Your task to perform on an android device: Clear the shopping cart on costco. Image 0: 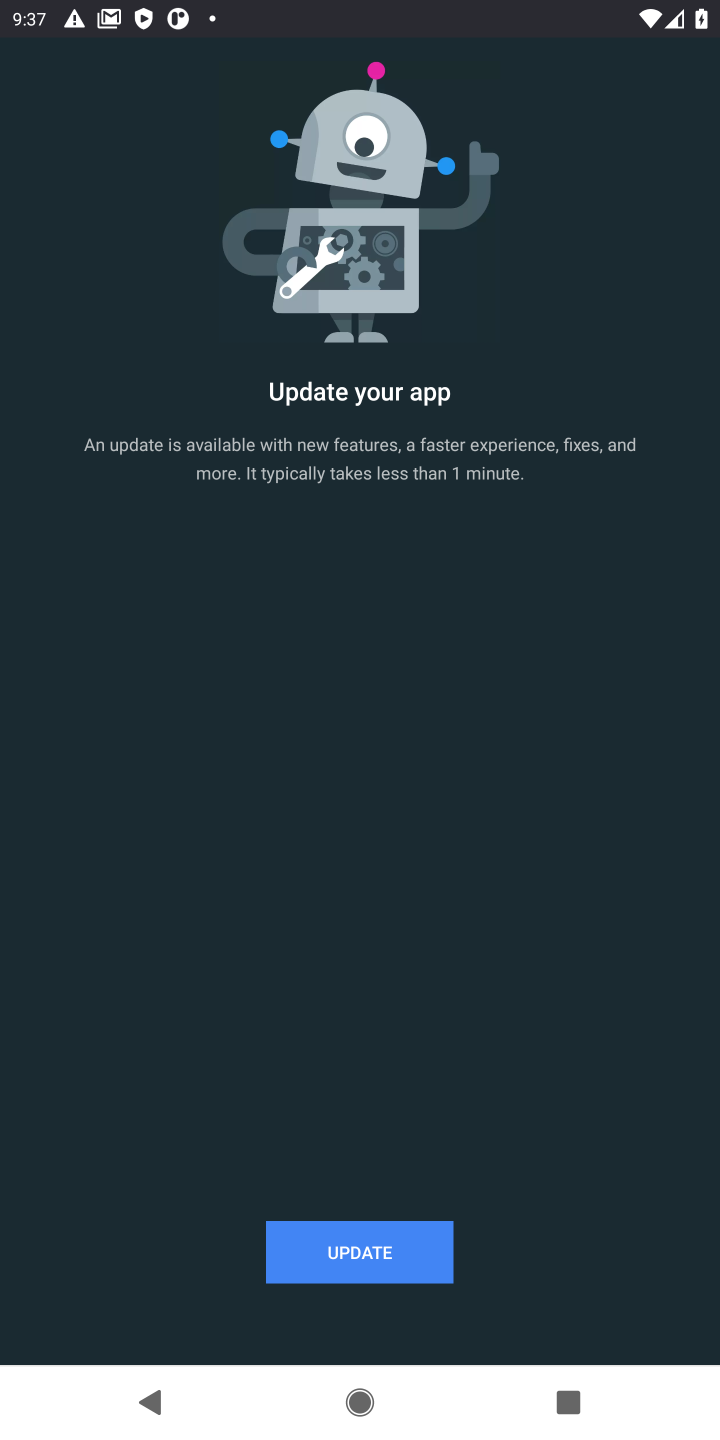
Step 0: press home button
Your task to perform on an android device: Clear the shopping cart on costco. Image 1: 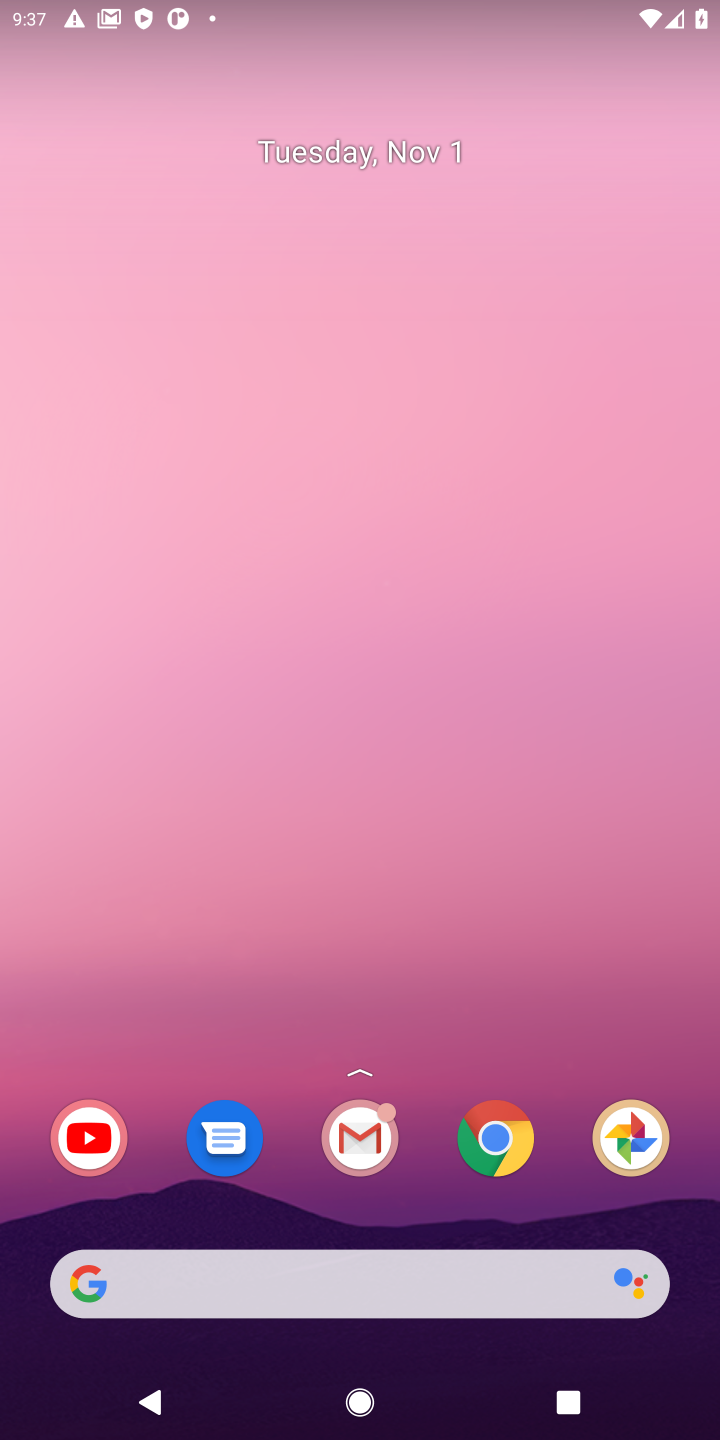
Step 1: click (490, 1156)
Your task to perform on an android device: Clear the shopping cart on costco. Image 2: 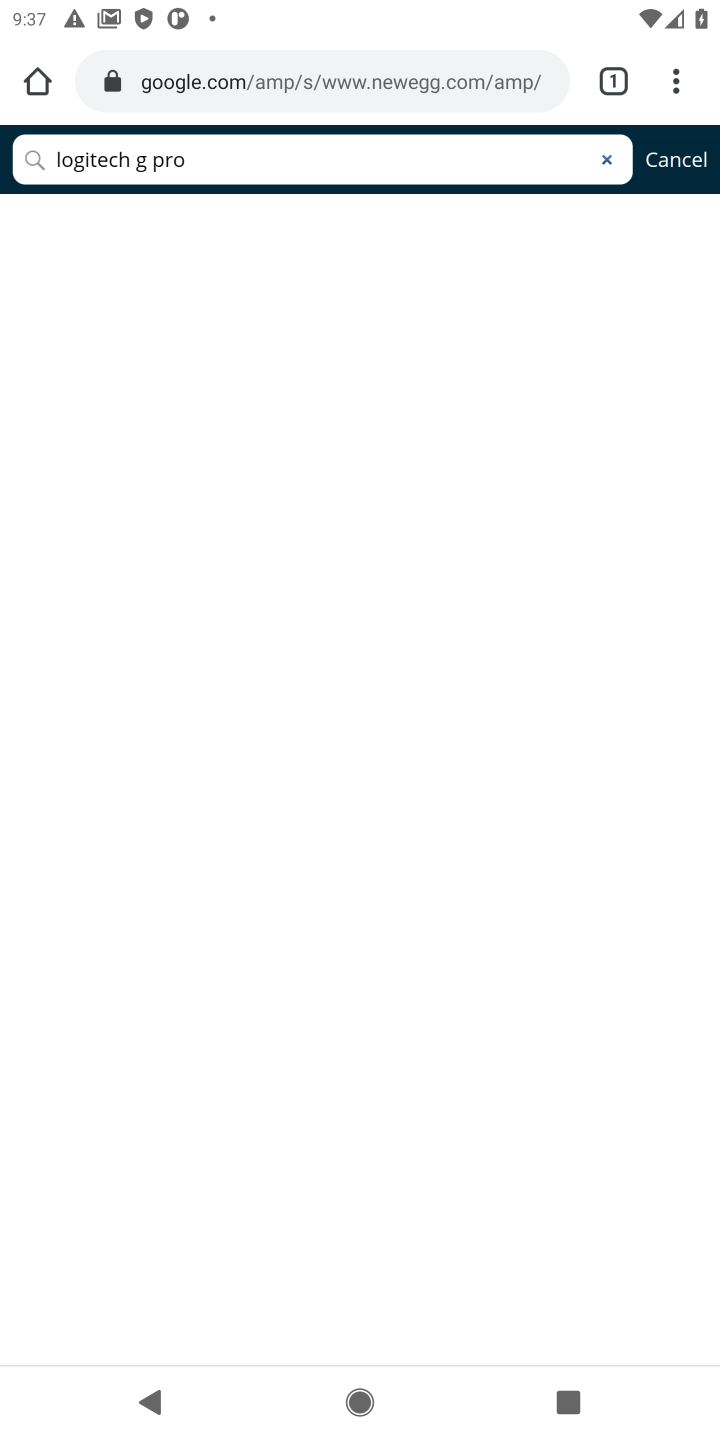
Step 2: click (272, 87)
Your task to perform on an android device: Clear the shopping cart on costco. Image 3: 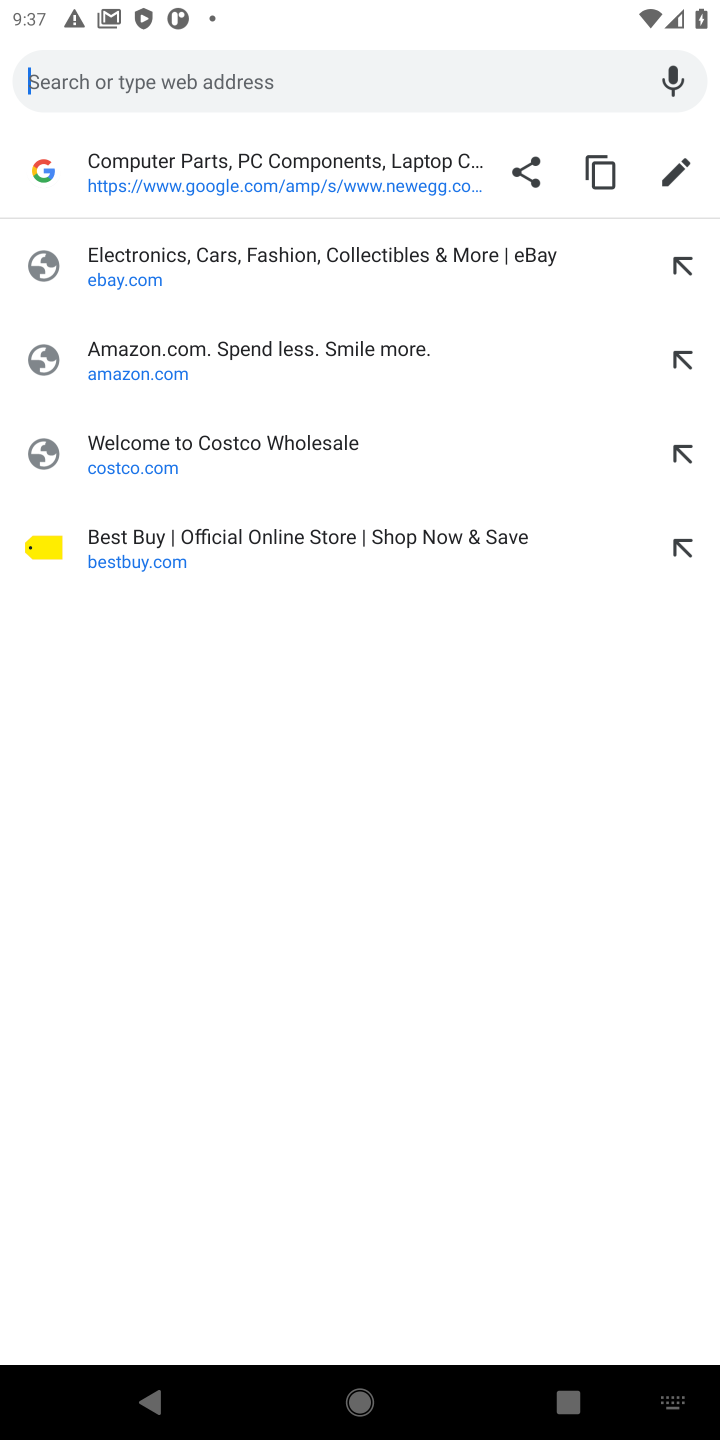
Step 3: type "costco.com"
Your task to perform on an android device: Clear the shopping cart on costco. Image 4: 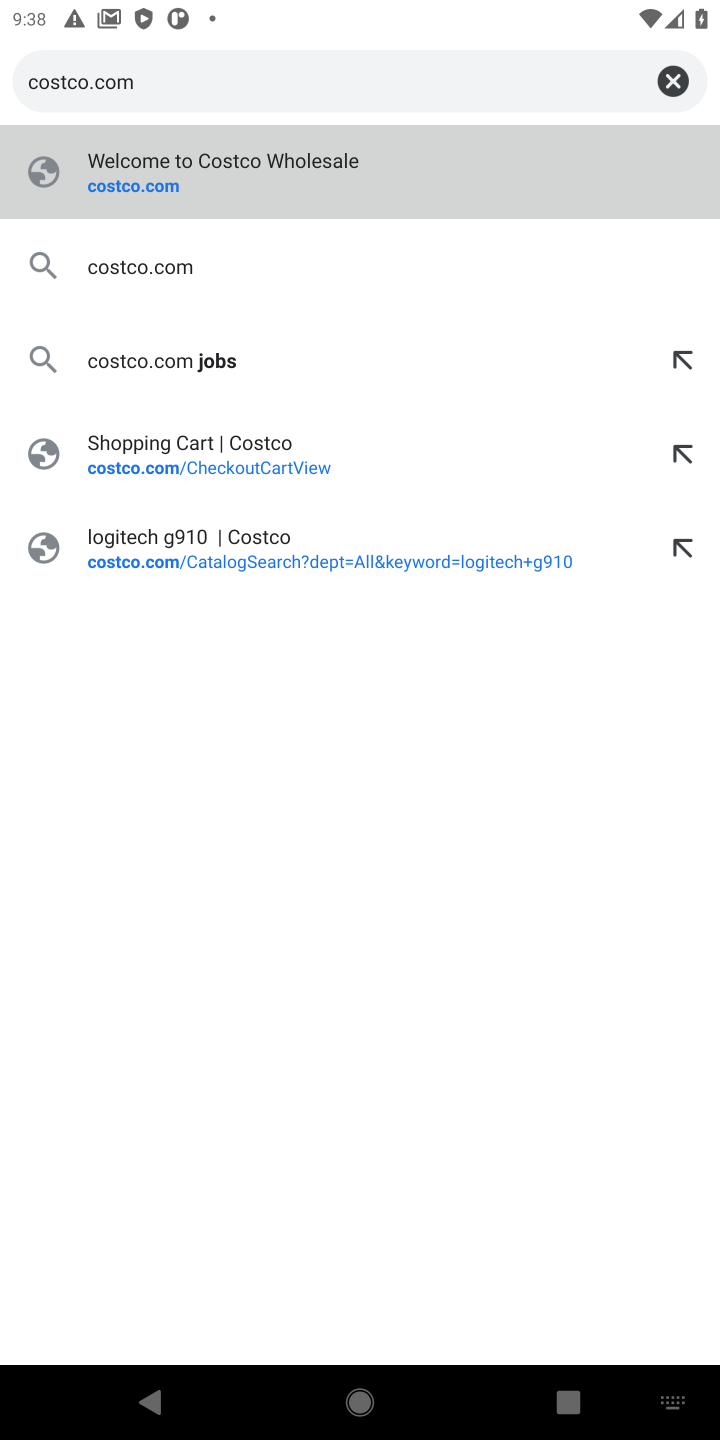
Step 4: click (145, 189)
Your task to perform on an android device: Clear the shopping cart on costco. Image 5: 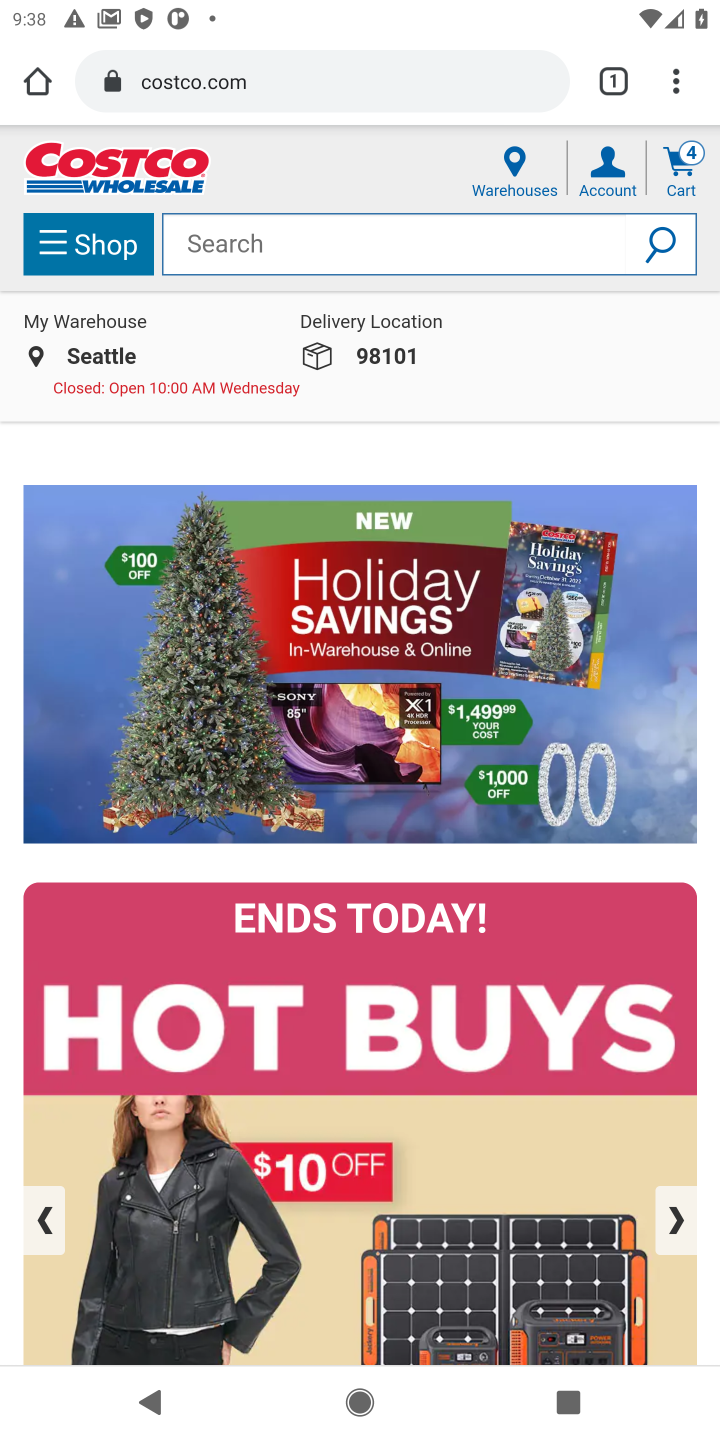
Step 5: click (686, 166)
Your task to perform on an android device: Clear the shopping cart on costco. Image 6: 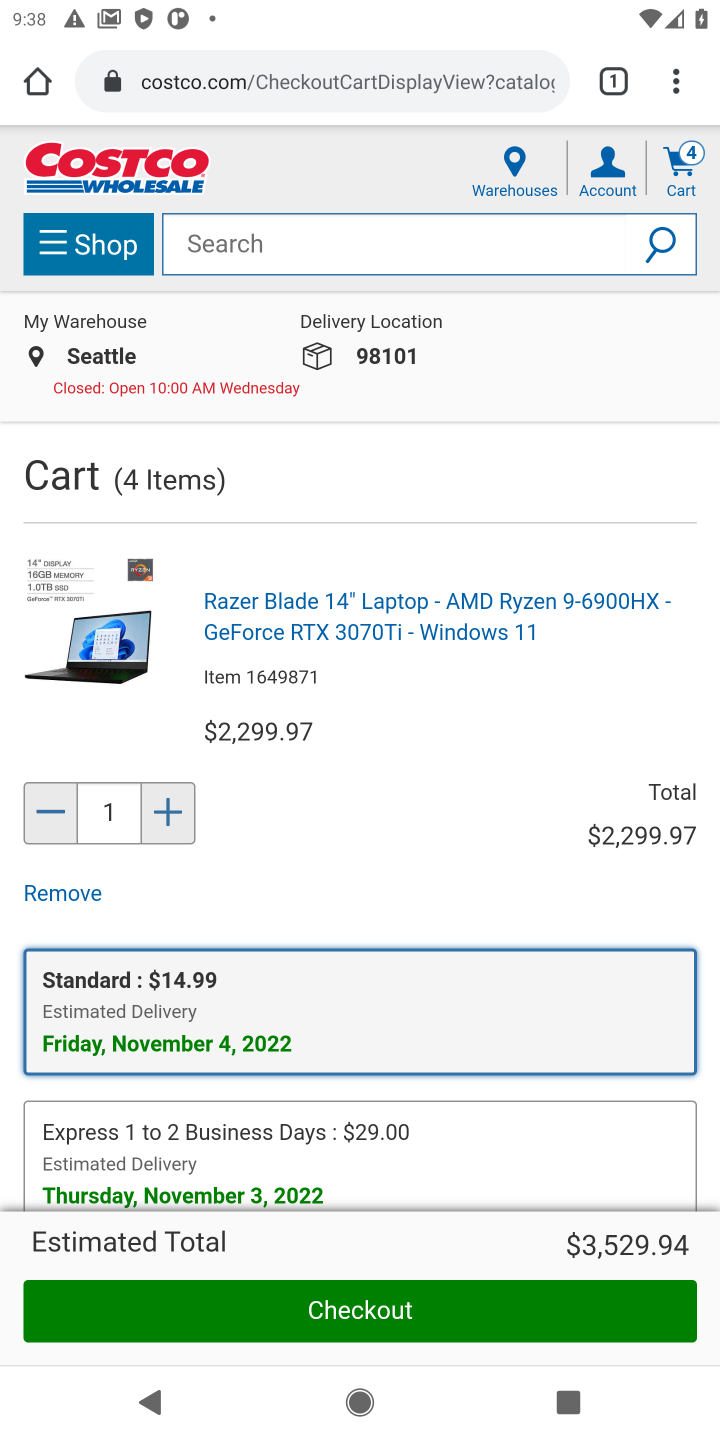
Step 6: click (58, 899)
Your task to perform on an android device: Clear the shopping cart on costco. Image 7: 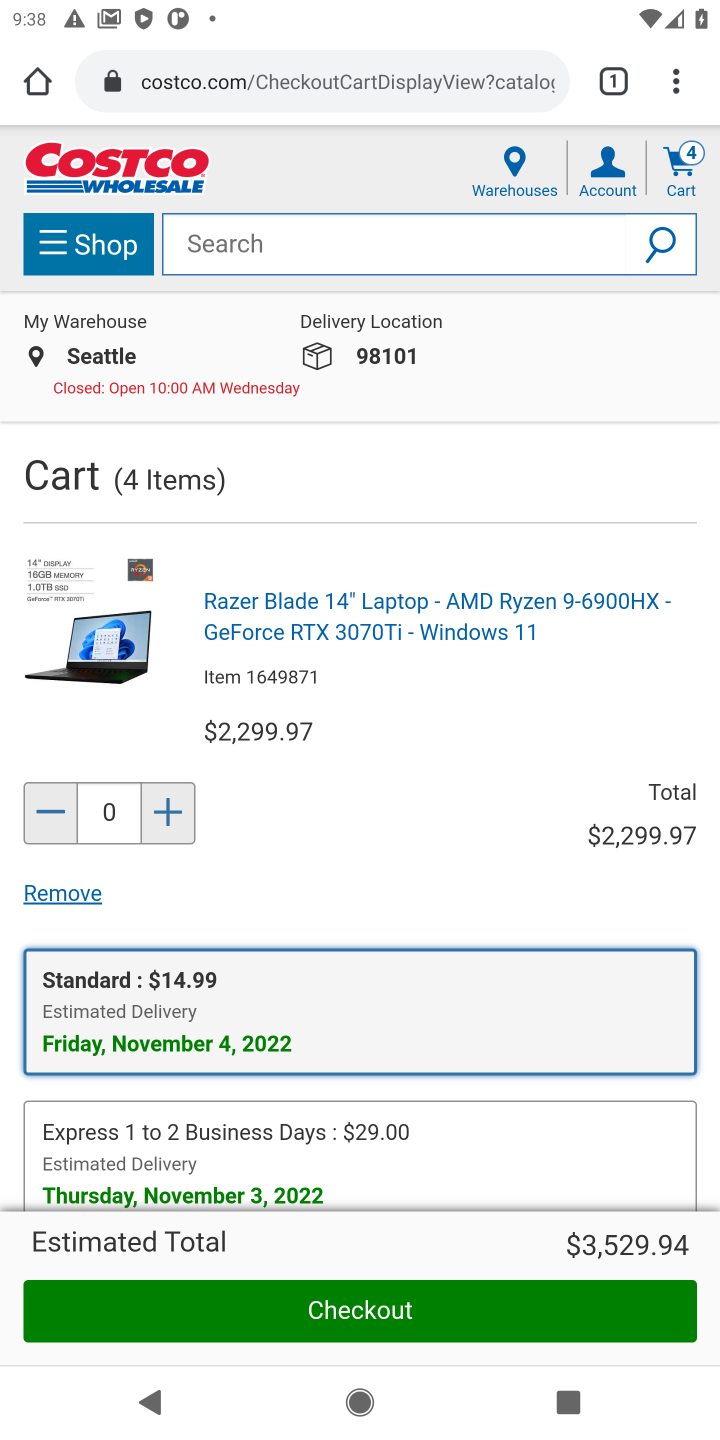
Step 7: click (51, 812)
Your task to perform on an android device: Clear the shopping cart on costco. Image 8: 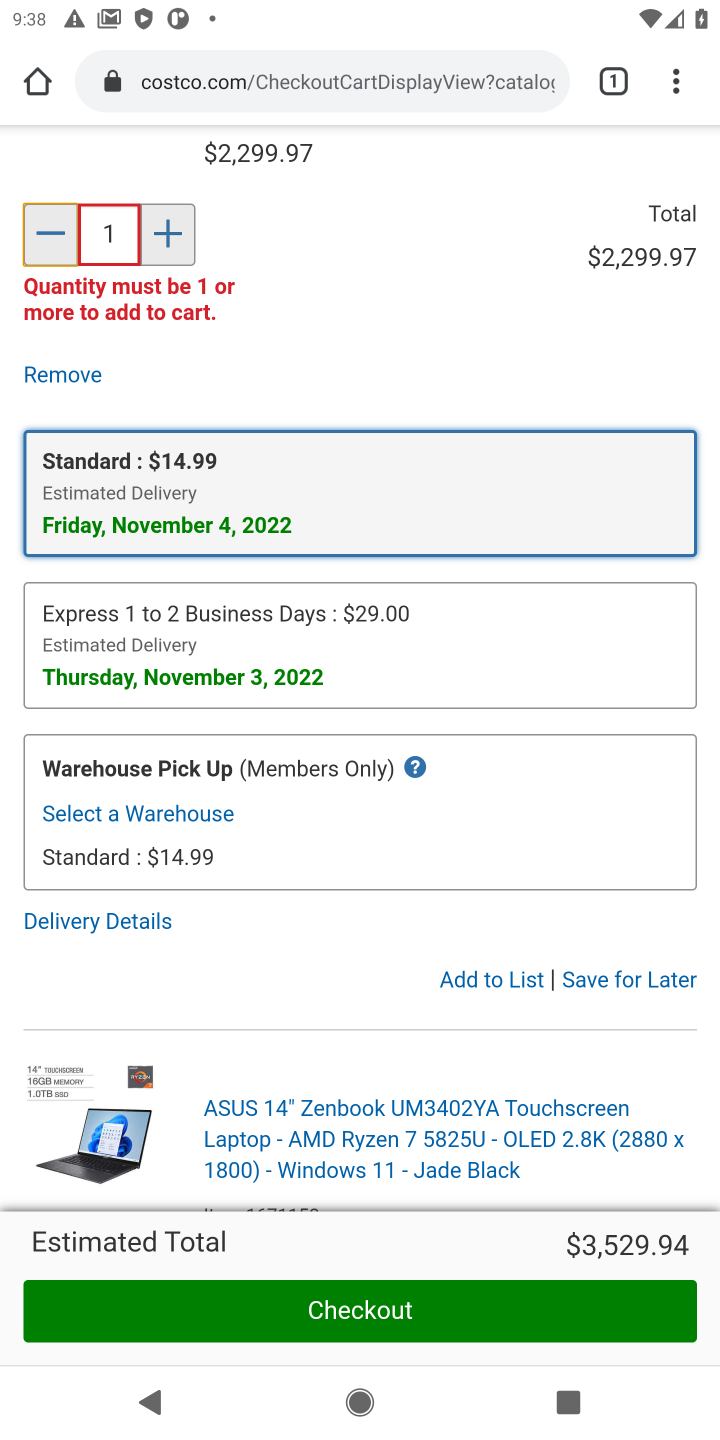
Step 8: click (64, 376)
Your task to perform on an android device: Clear the shopping cart on costco. Image 9: 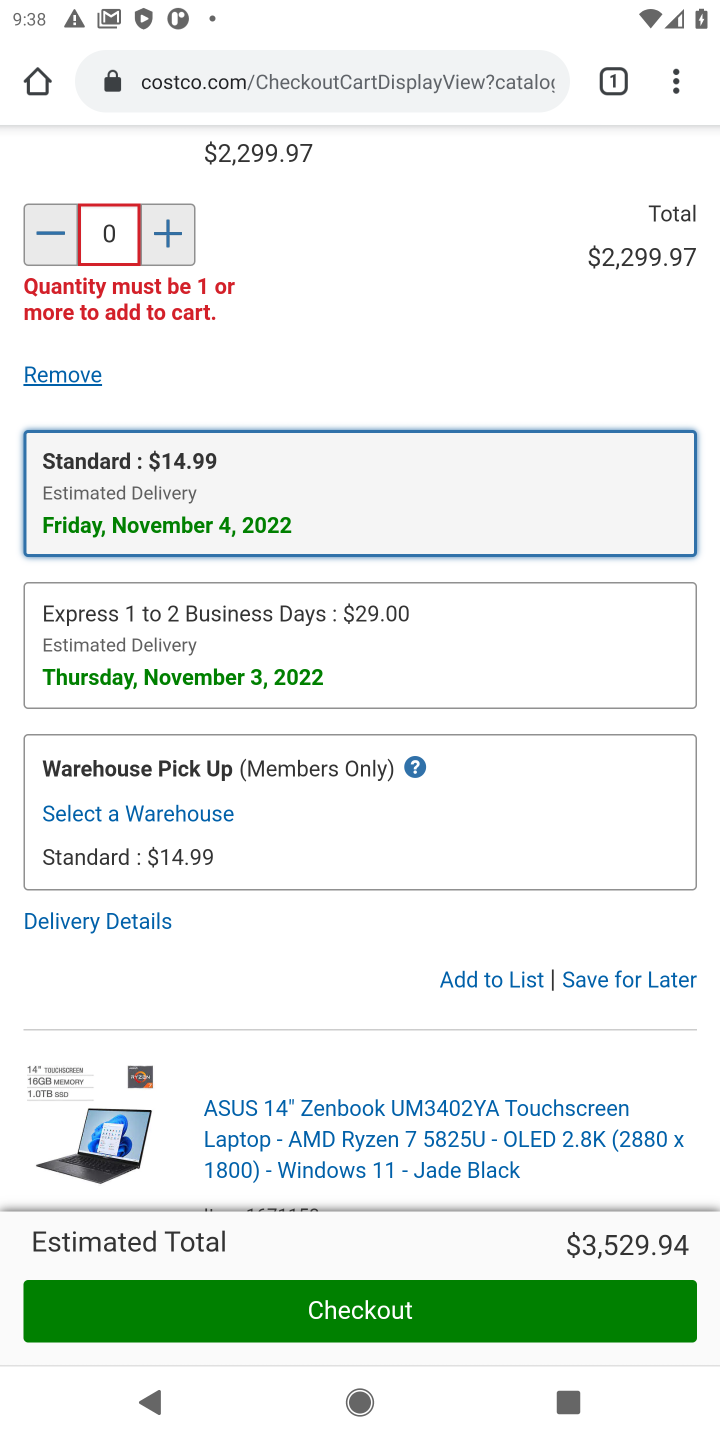
Step 9: click (64, 376)
Your task to perform on an android device: Clear the shopping cart on costco. Image 10: 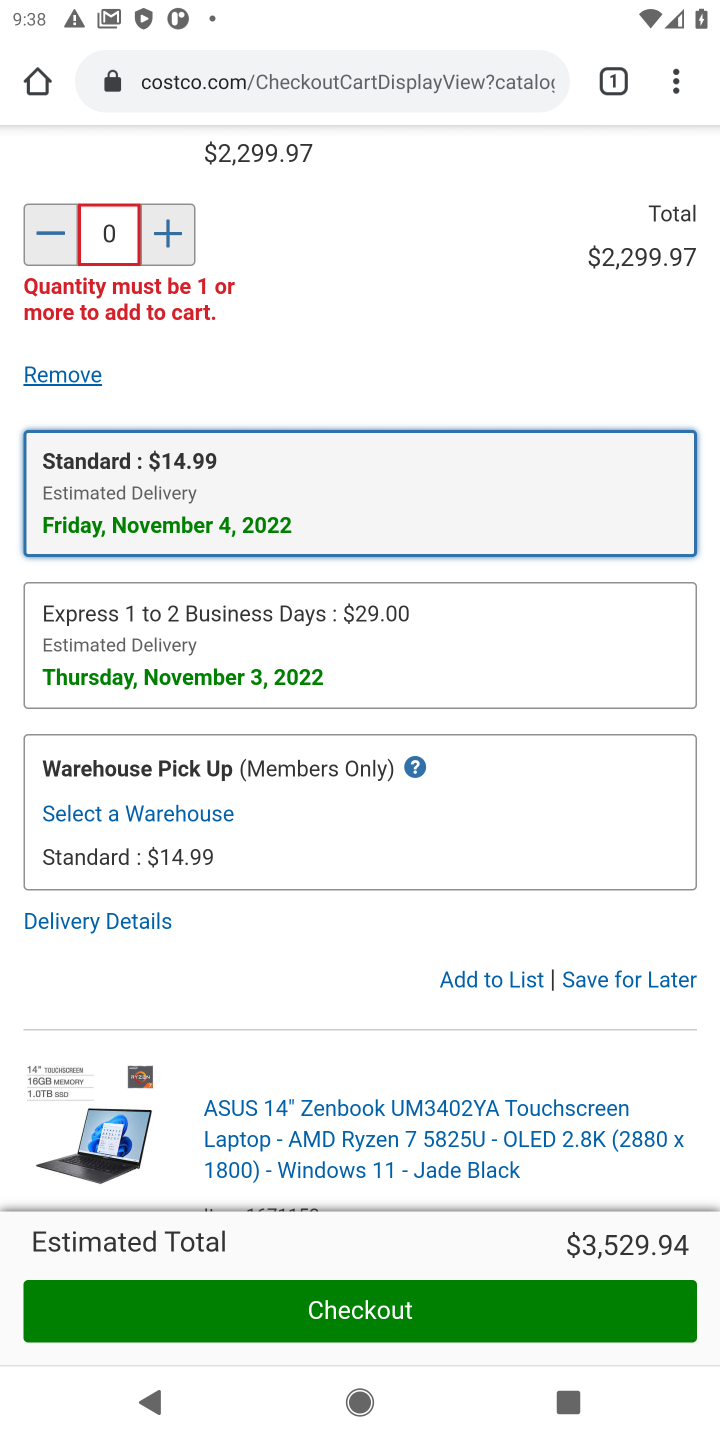
Step 10: drag from (176, 893) to (170, 402)
Your task to perform on an android device: Clear the shopping cart on costco. Image 11: 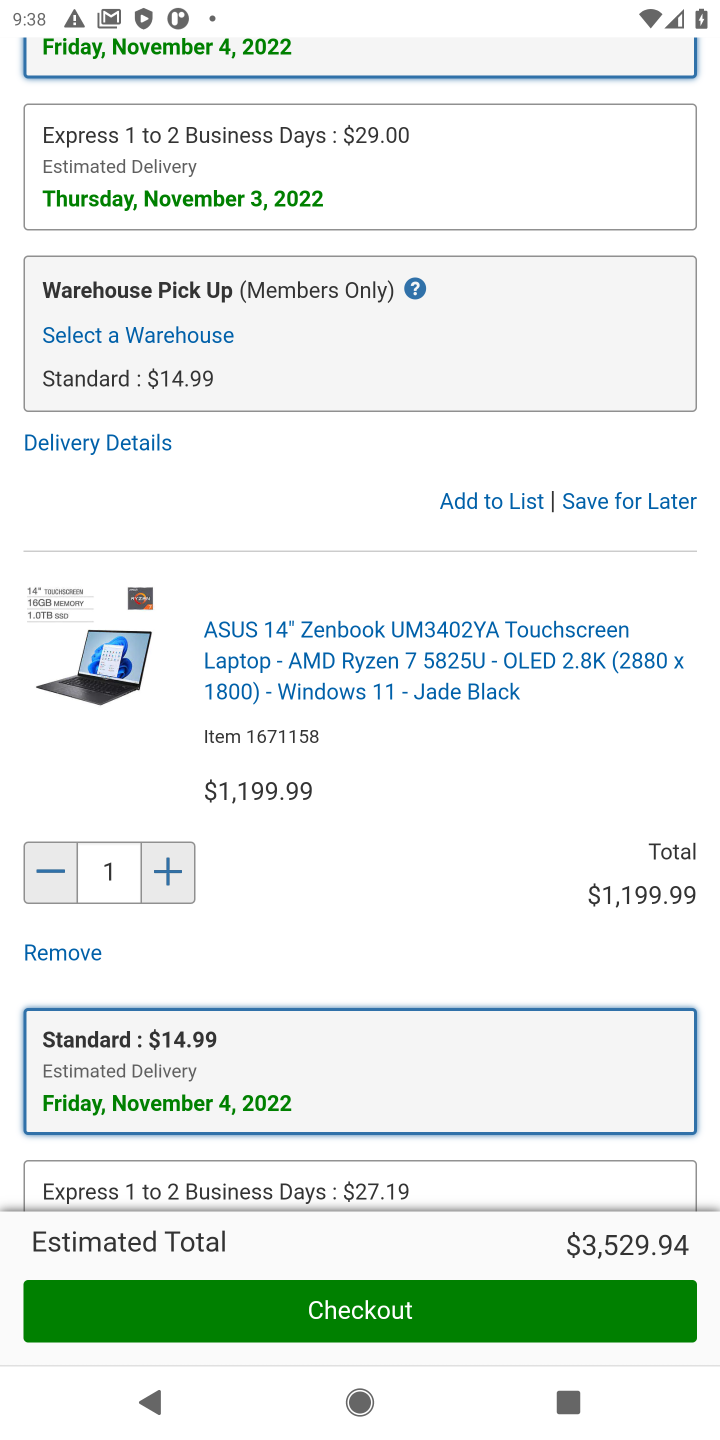
Step 11: click (77, 952)
Your task to perform on an android device: Clear the shopping cart on costco. Image 12: 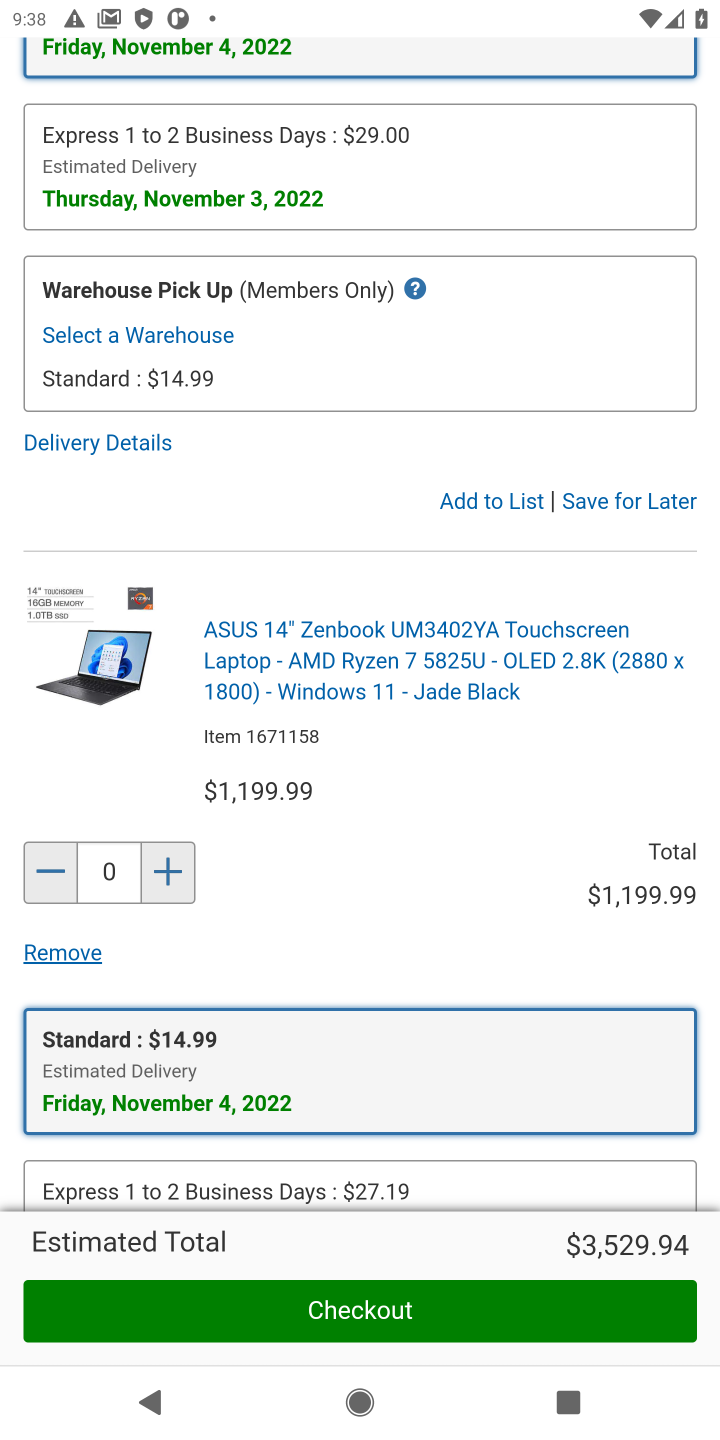
Step 12: drag from (173, 941) to (201, 437)
Your task to perform on an android device: Clear the shopping cart on costco. Image 13: 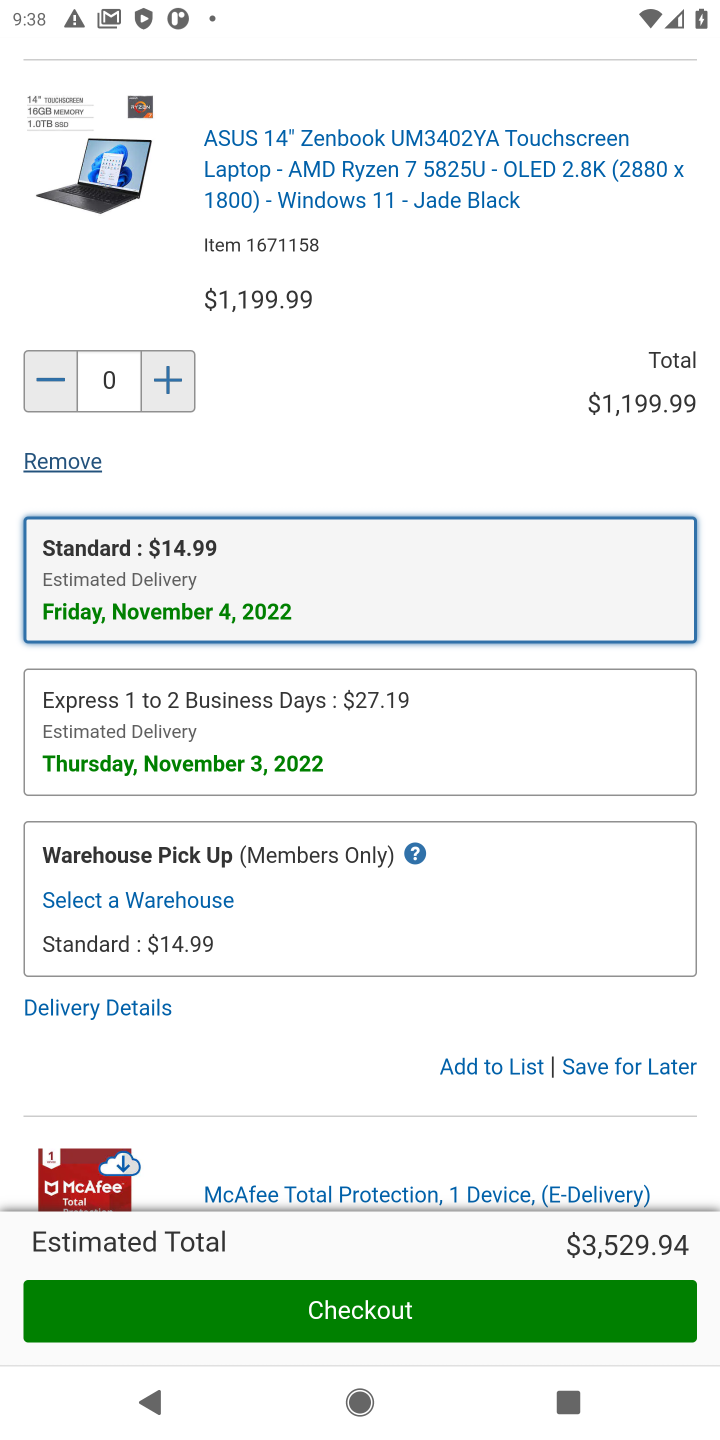
Step 13: drag from (224, 1027) to (185, 517)
Your task to perform on an android device: Clear the shopping cart on costco. Image 14: 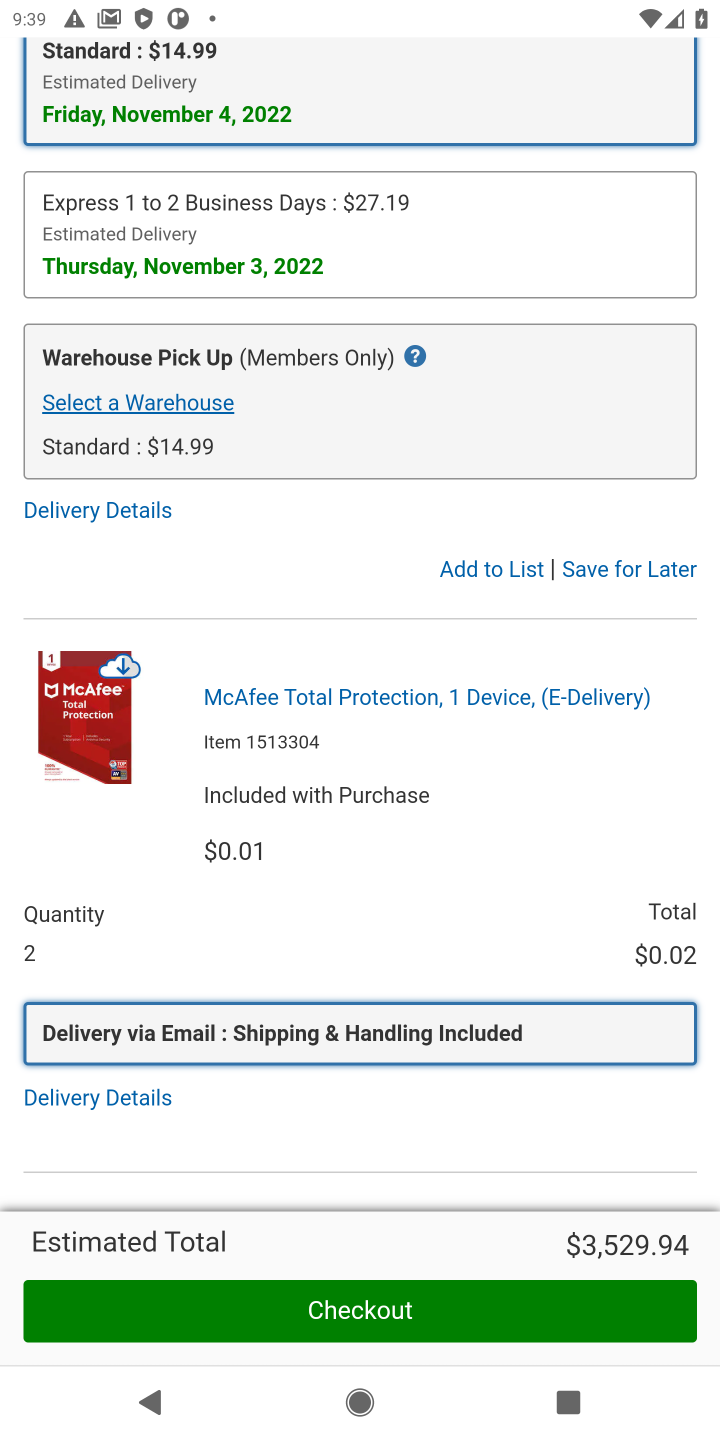
Step 14: drag from (432, 883) to (400, 499)
Your task to perform on an android device: Clear the shopping cart on costco. Image 15: 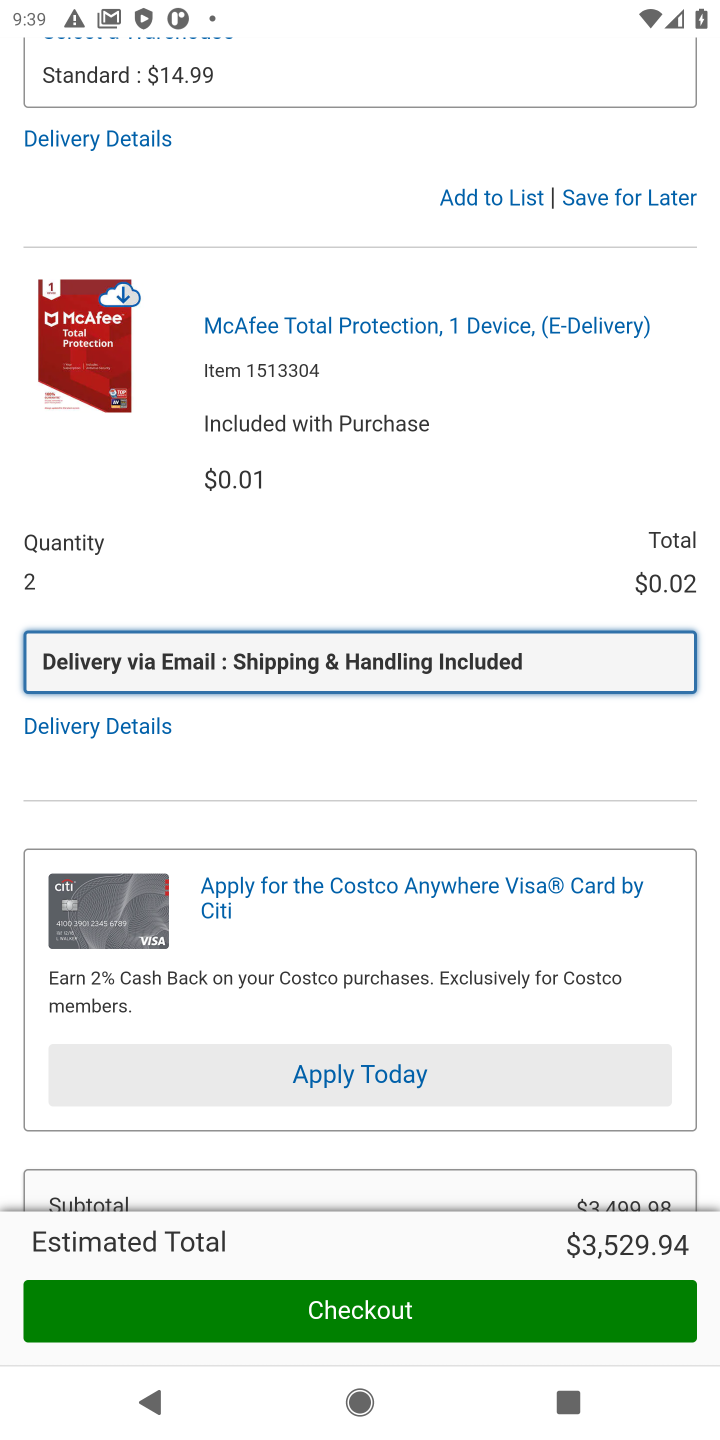
Step 15: drag from (308, 862) to (285, 527)
Your task to perform on an android device: Clear the shopping cart on costco. Image 16: 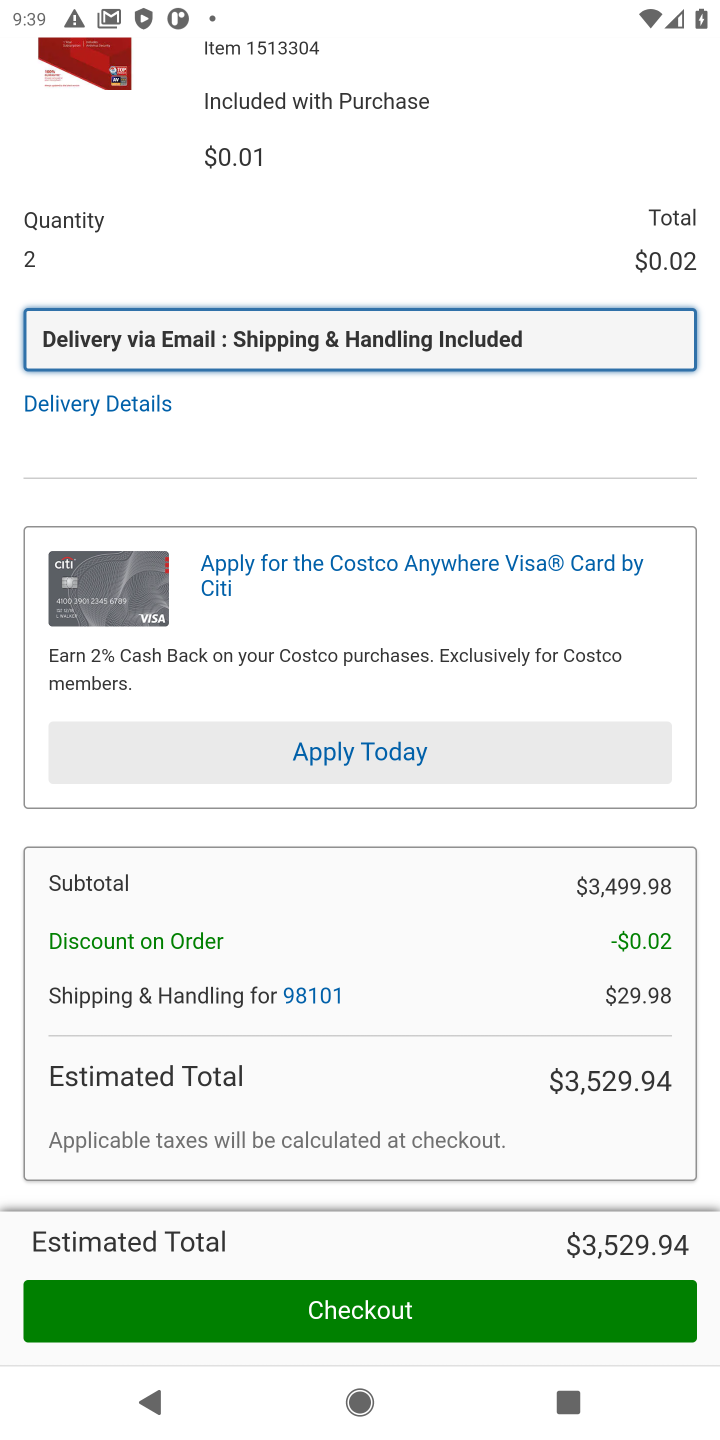
Step 16: drag from (275, 959) to (273, 578)
Your task to perform on an android device: Clear the shopping cart on costco. Image 17: 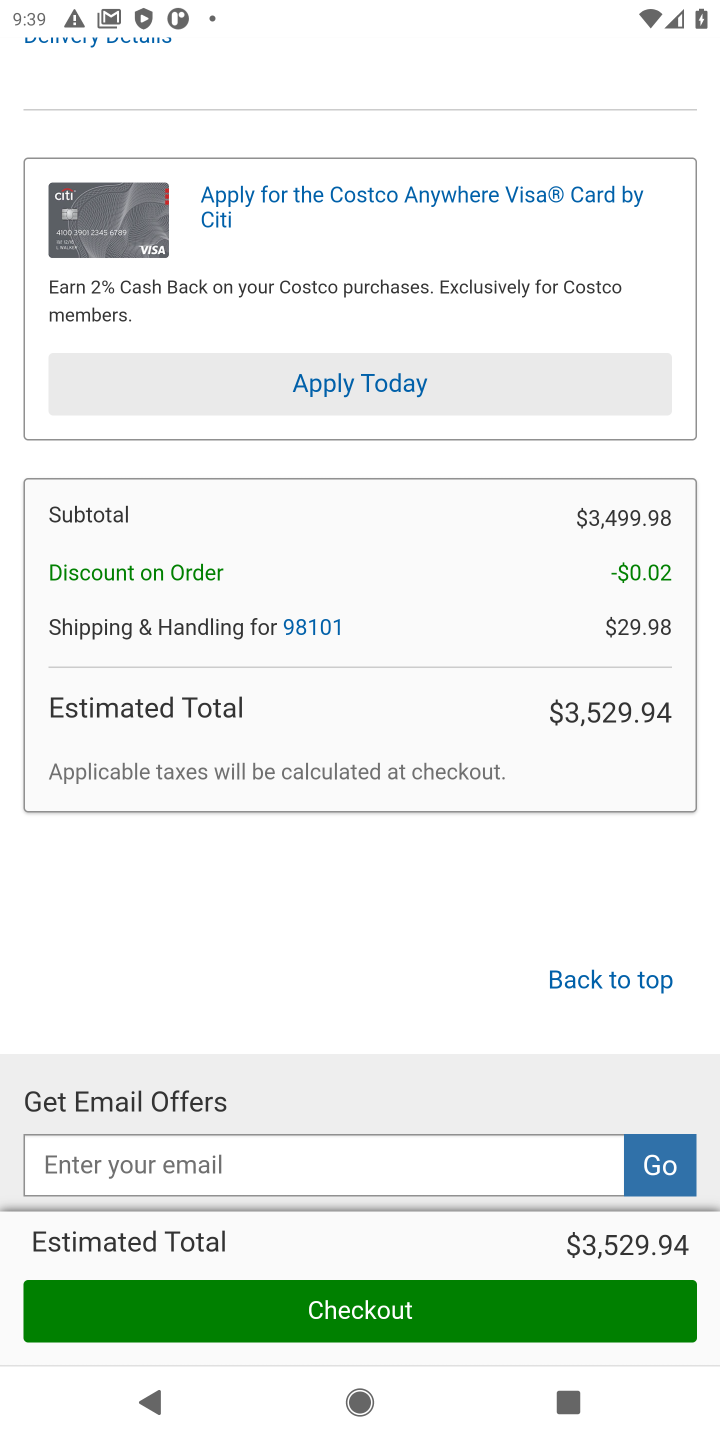
Step 17: drag from (259, 873) to (276, 520)
Your task to perform on an android device: Clear the shopping cart on costco. Image 18: 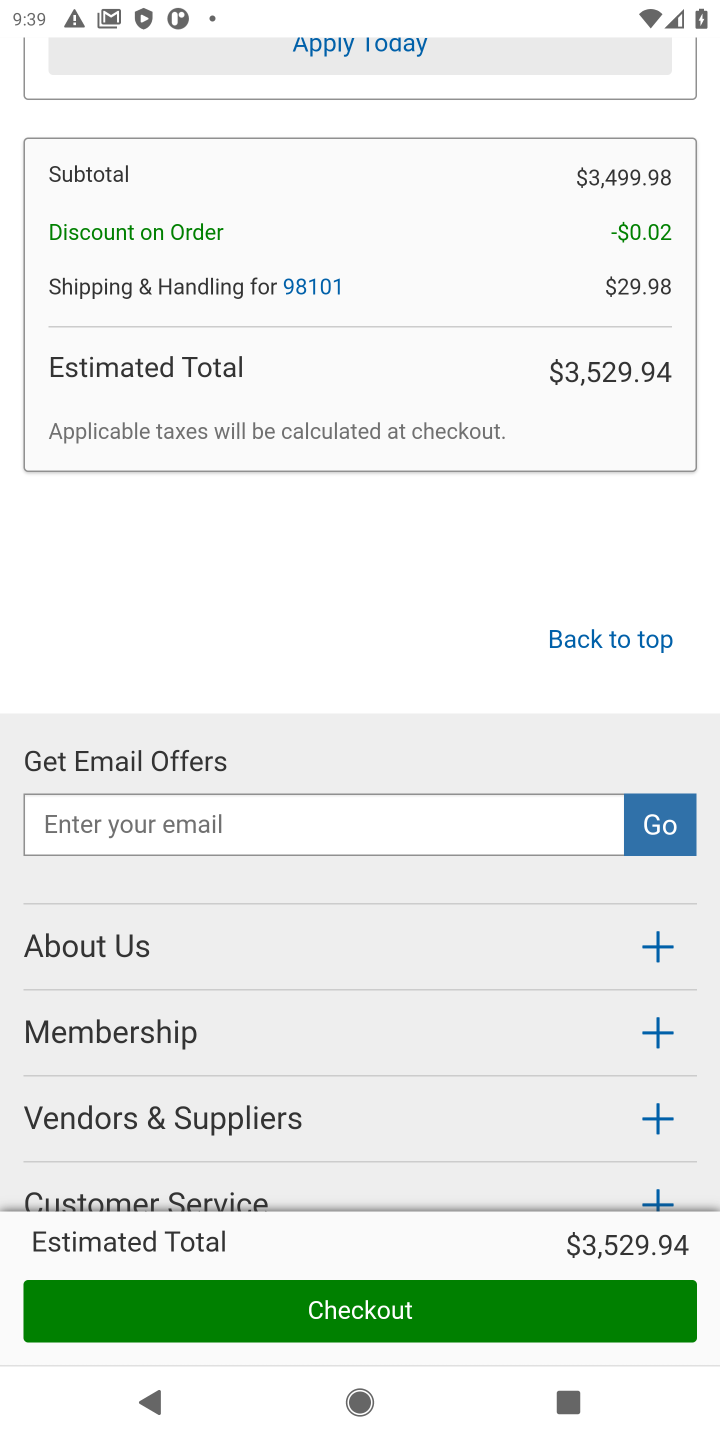
Step 18: drag from (278, 518) to (286, 1223)
Your task to perform on an android device: Clear the shopping cart on costco. Image 19: 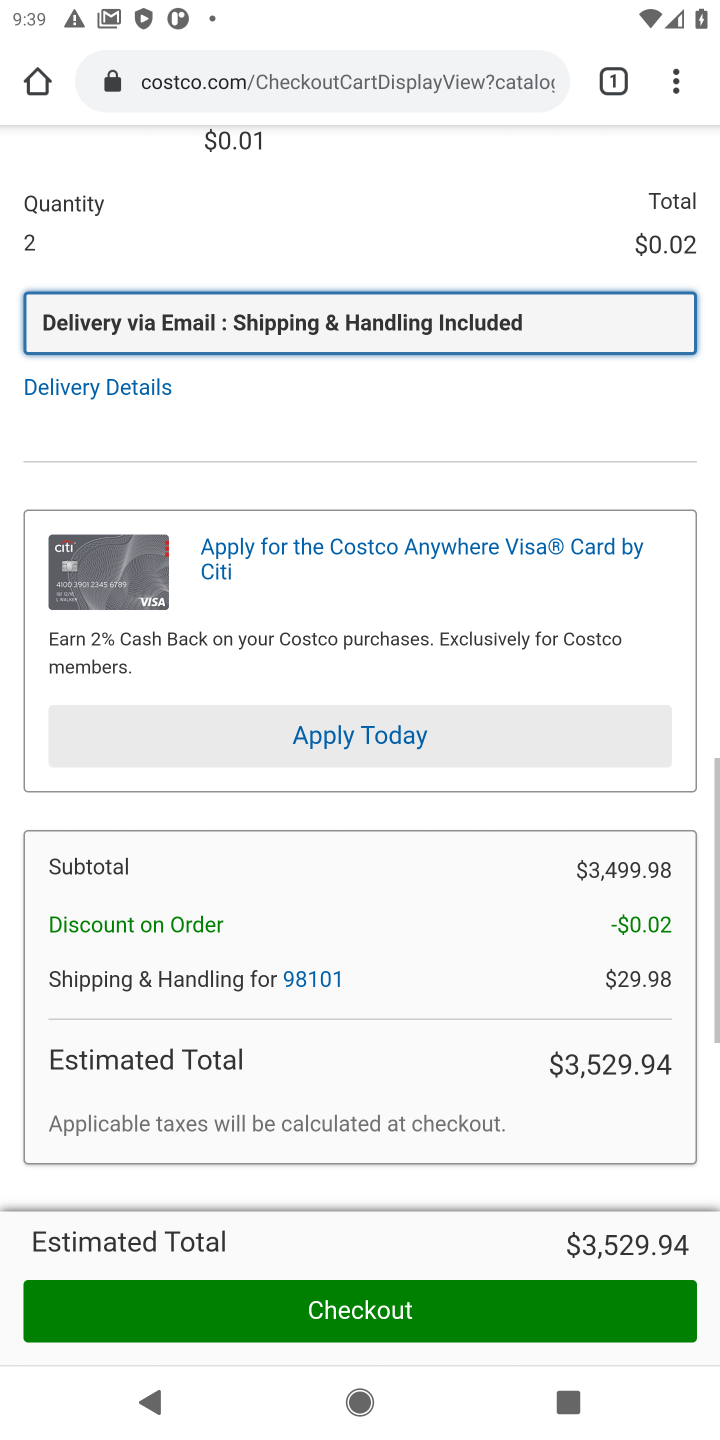
Step 19: drag from (275, 462) to (292, 1093)
Your task to perform on an android device: Clear the shopping cart on costco. Image 20: 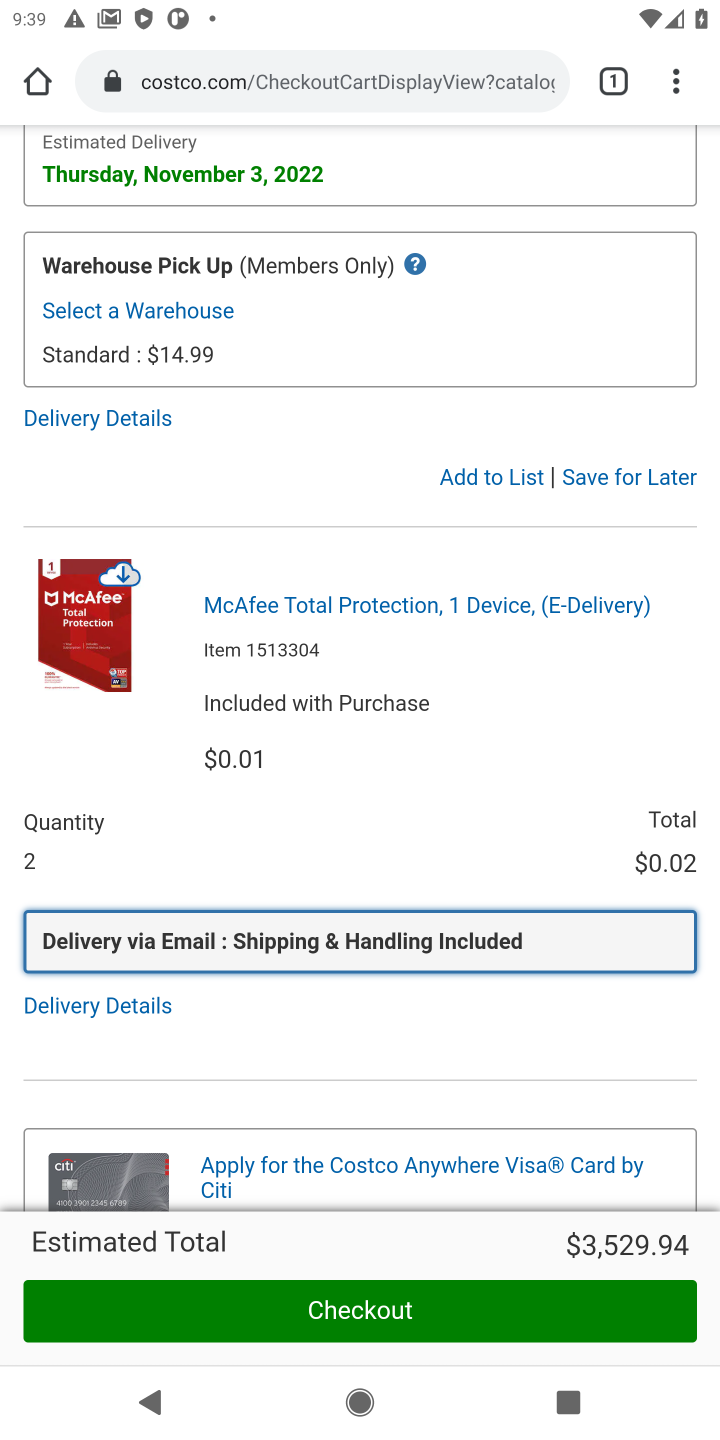
Step 20: drag from (277, 668) to (281, 798)
Your task to perform on an android device: Clear the shopping cart on costco. Image 21: 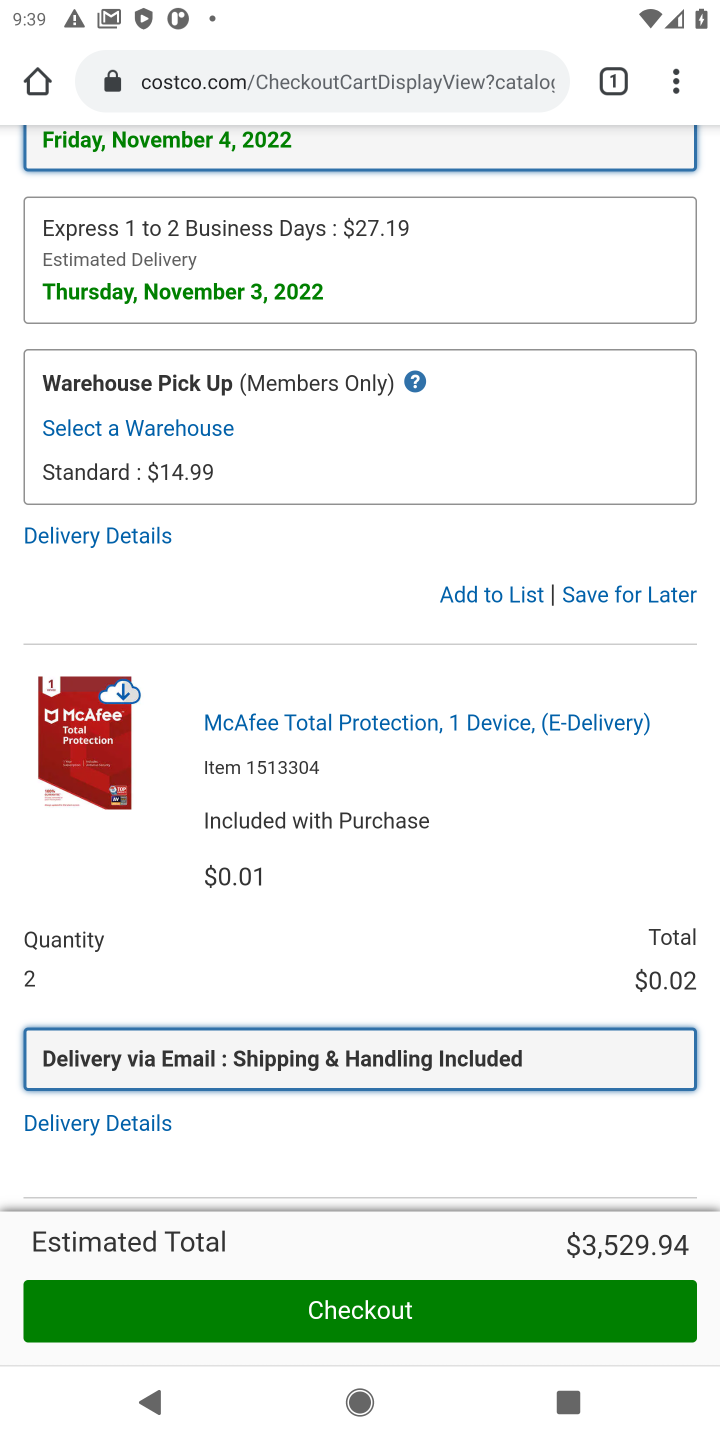
Step 21: drag from (233, 755) to (181, 1087)
Your task to perform on an android device: Clear the shopping cart on costco. Image 22: 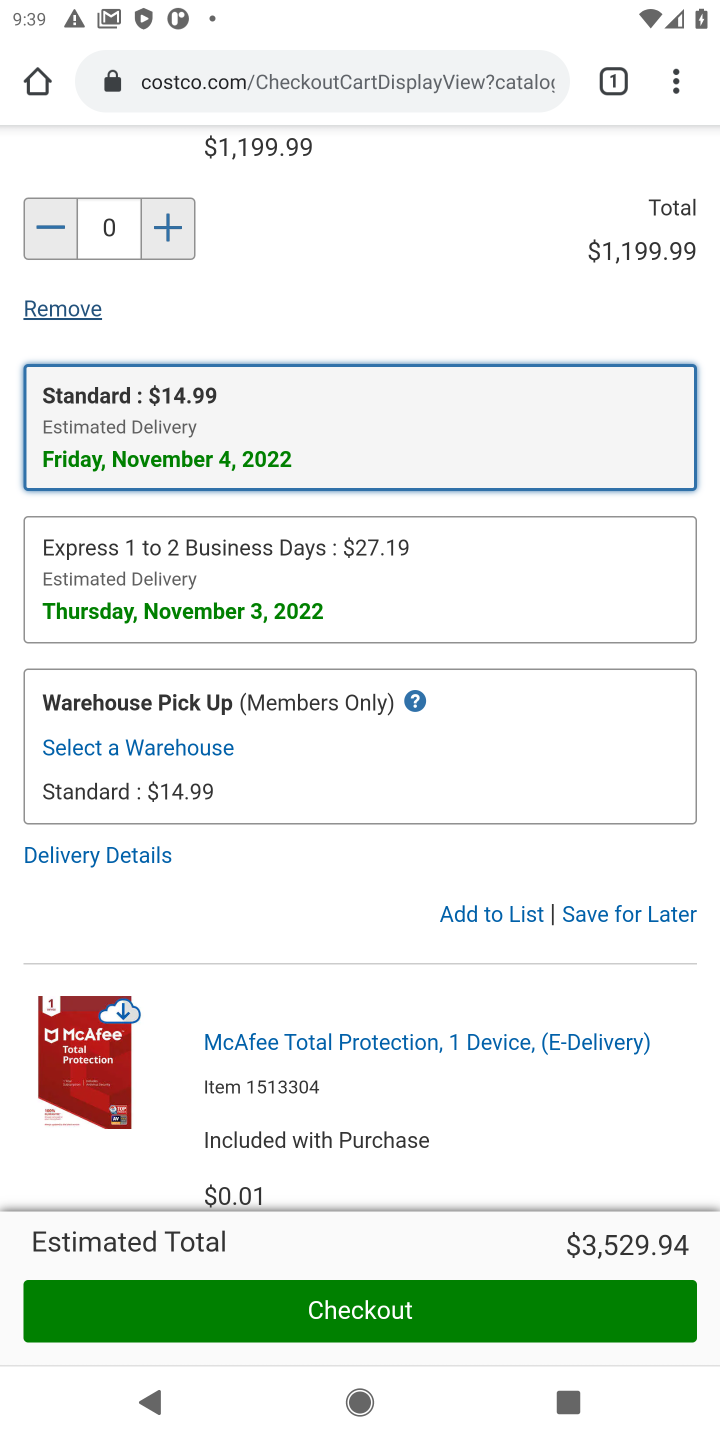
Step 22: drag from (224, 545) to (198, 925)
Your task to perform on an android device: Clear the shopping cart on costco. Image 23: 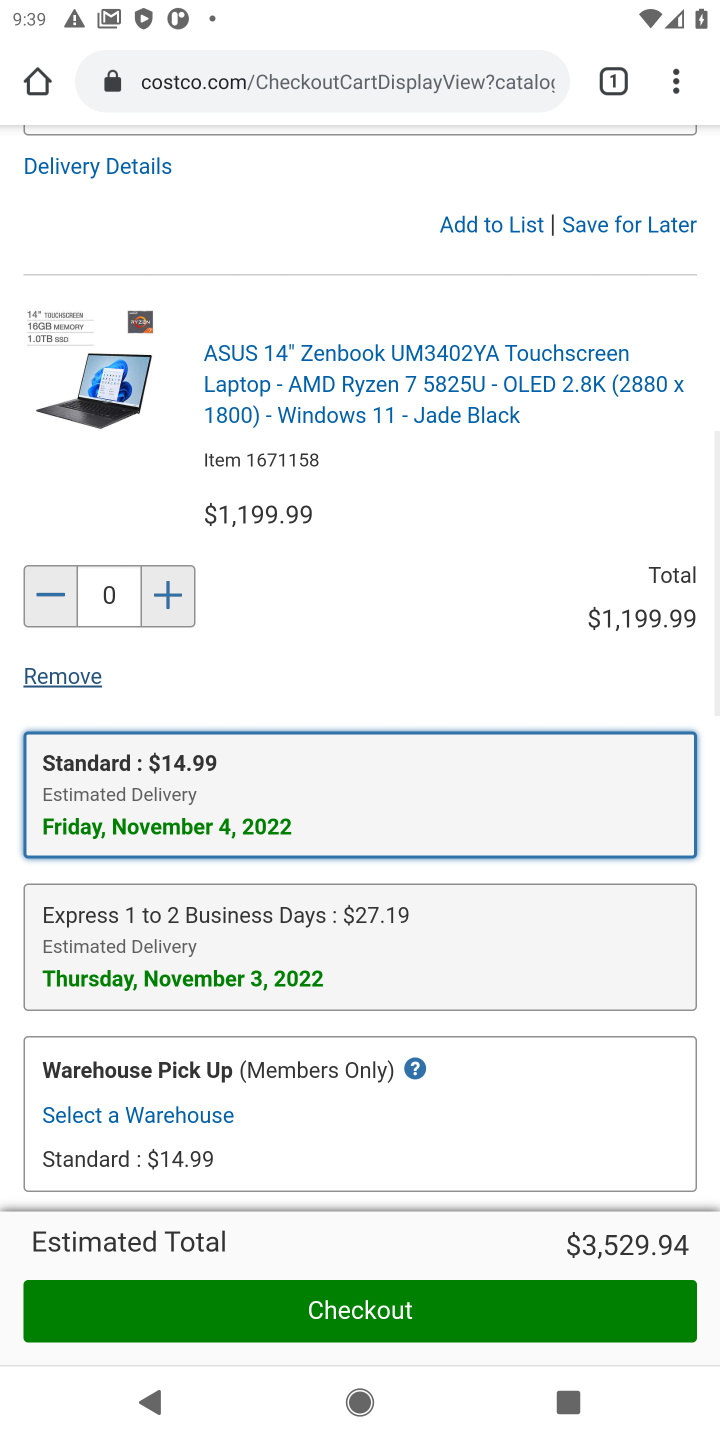
Step 23: drag from (268, 495) to (216, 854)
Your task to perform on an android device: Clear the shopping cart on costco. Image 24: 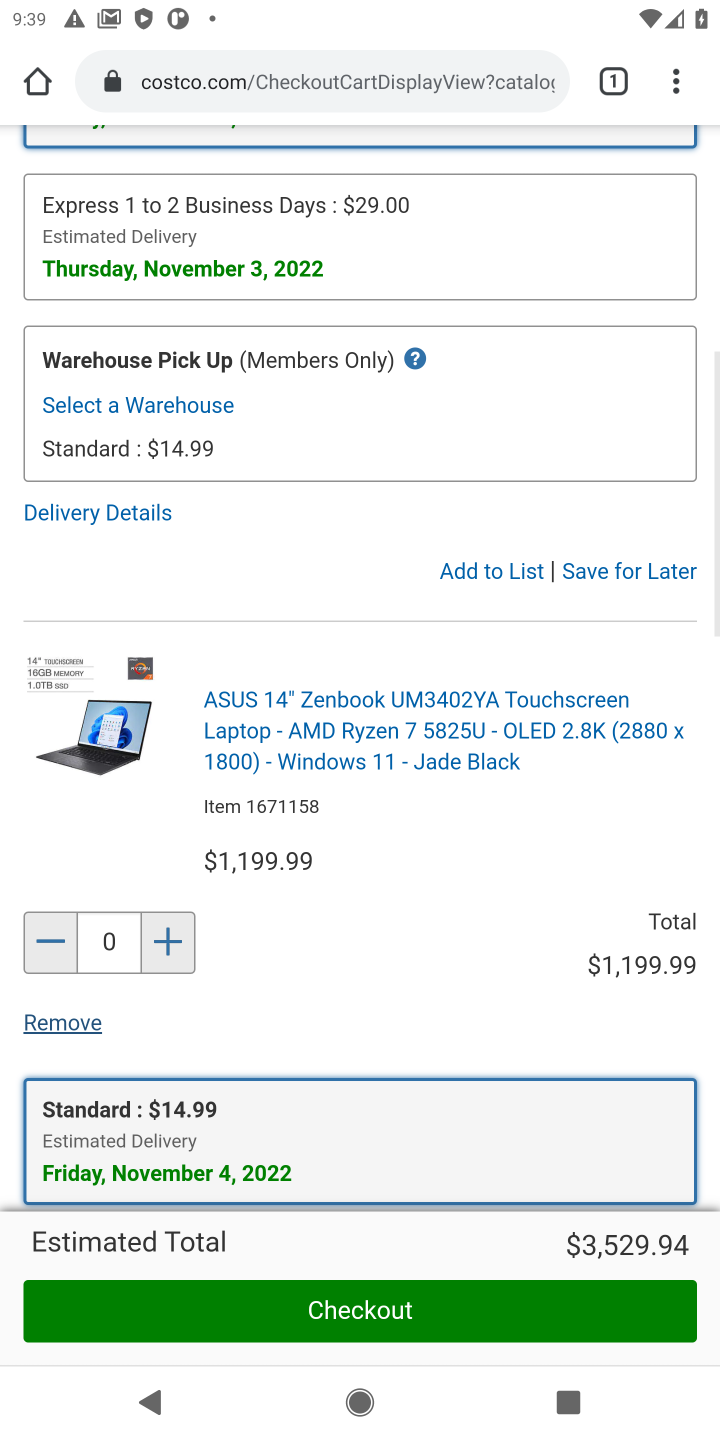
Step 24: drag from (316, 358) to (272, 840)
Your task to perform on an android device: Clear the shopping cart on costco. Image 25: 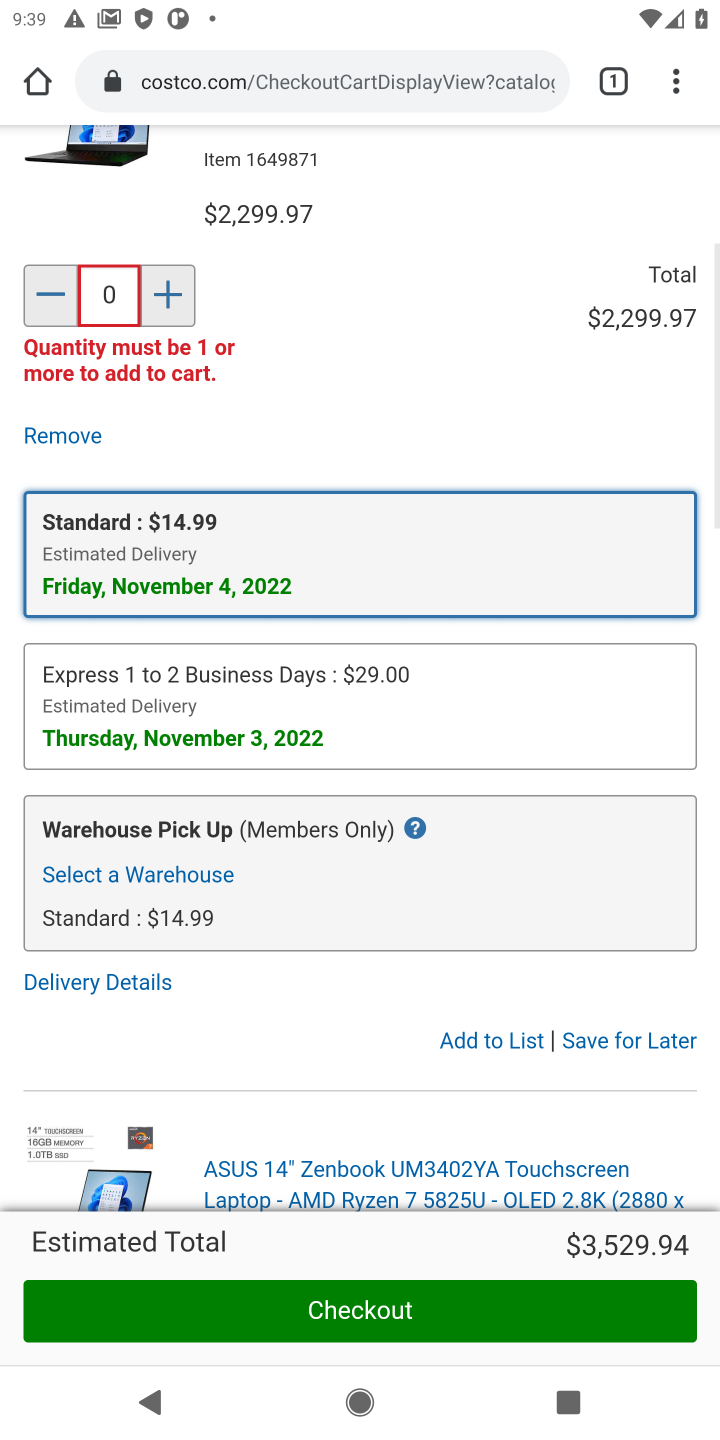
Step 25: drag from (357, 357) to (300, 757)
Your task to perform on an android device: Clear the shopping cart on costco. Image 26: 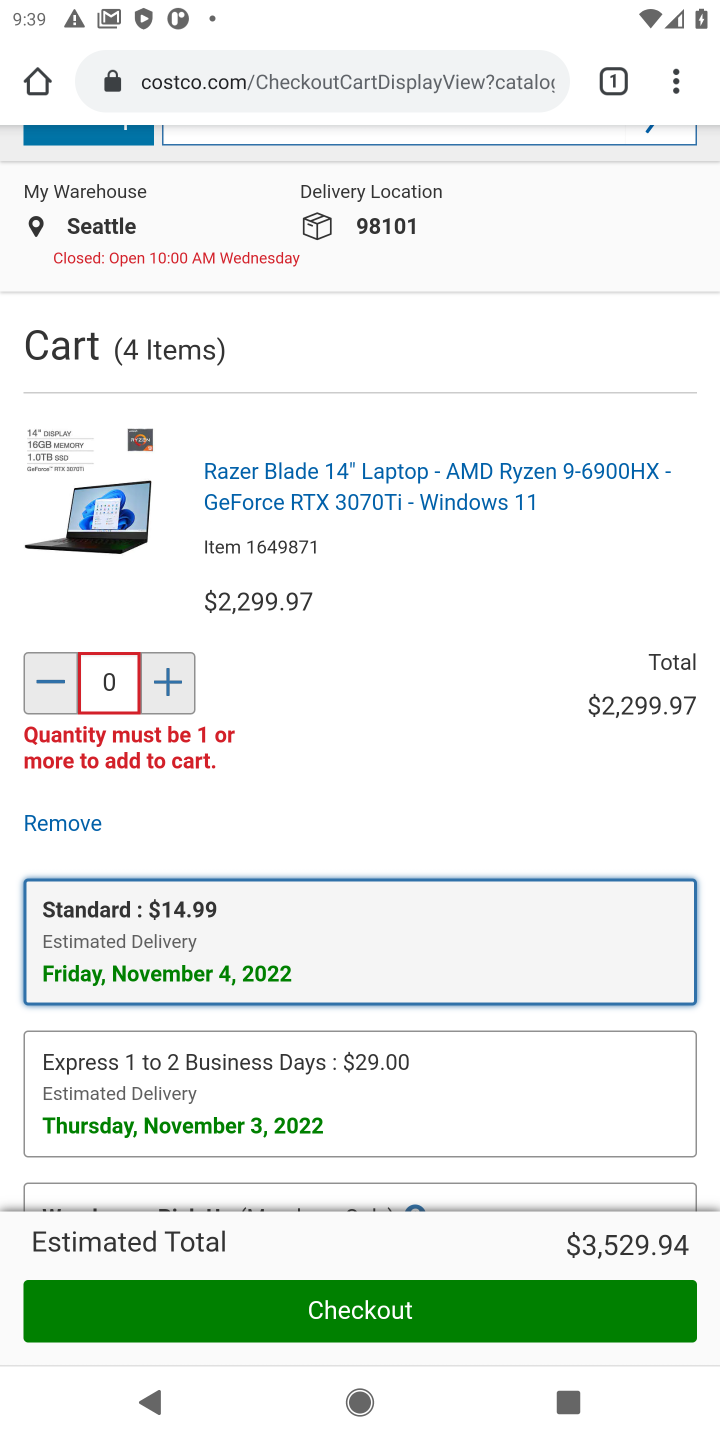
Step 26: drag from (379, 415) to (292, 778)
Your task to perform on an android device: Clear the shopping cart on costco. Image 27: 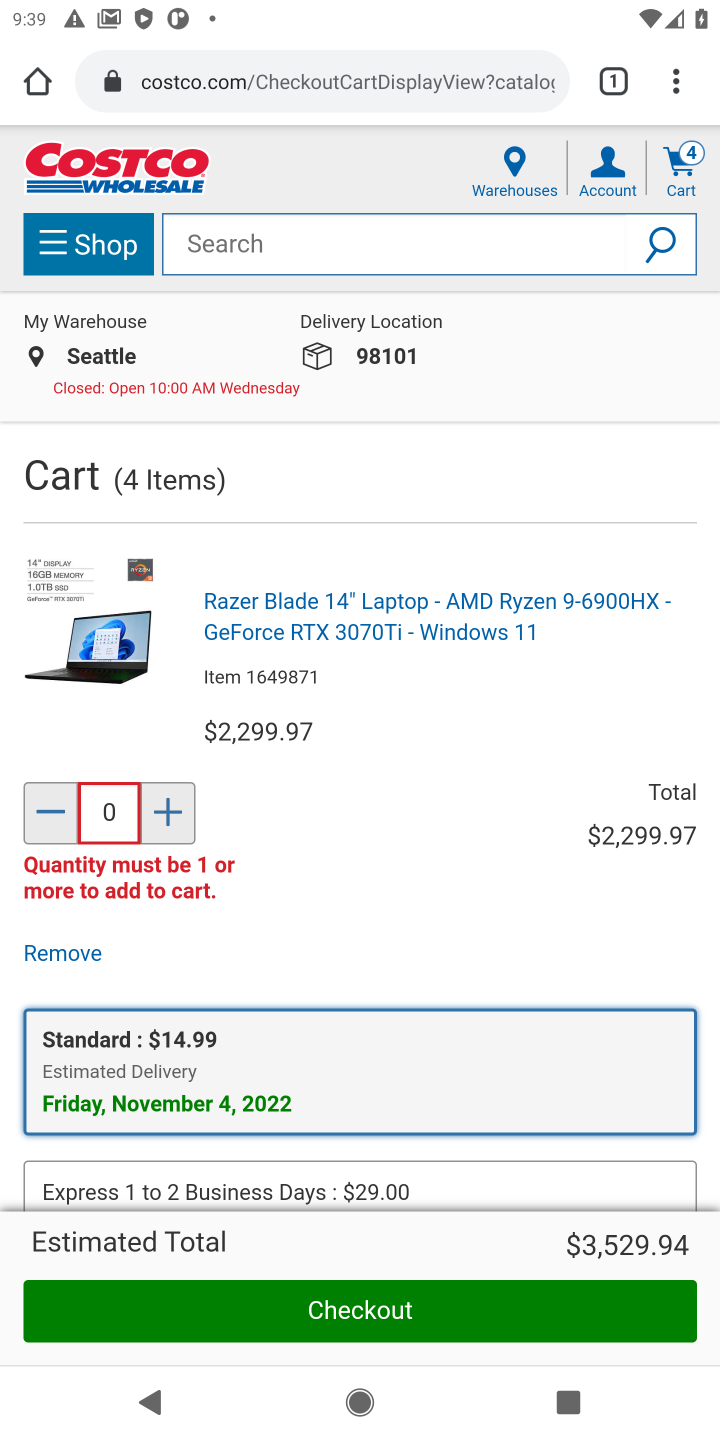
Step 27: click (681, 159)
Your task to perform on an android device: Clear the shopping cart on costco. Image 28: 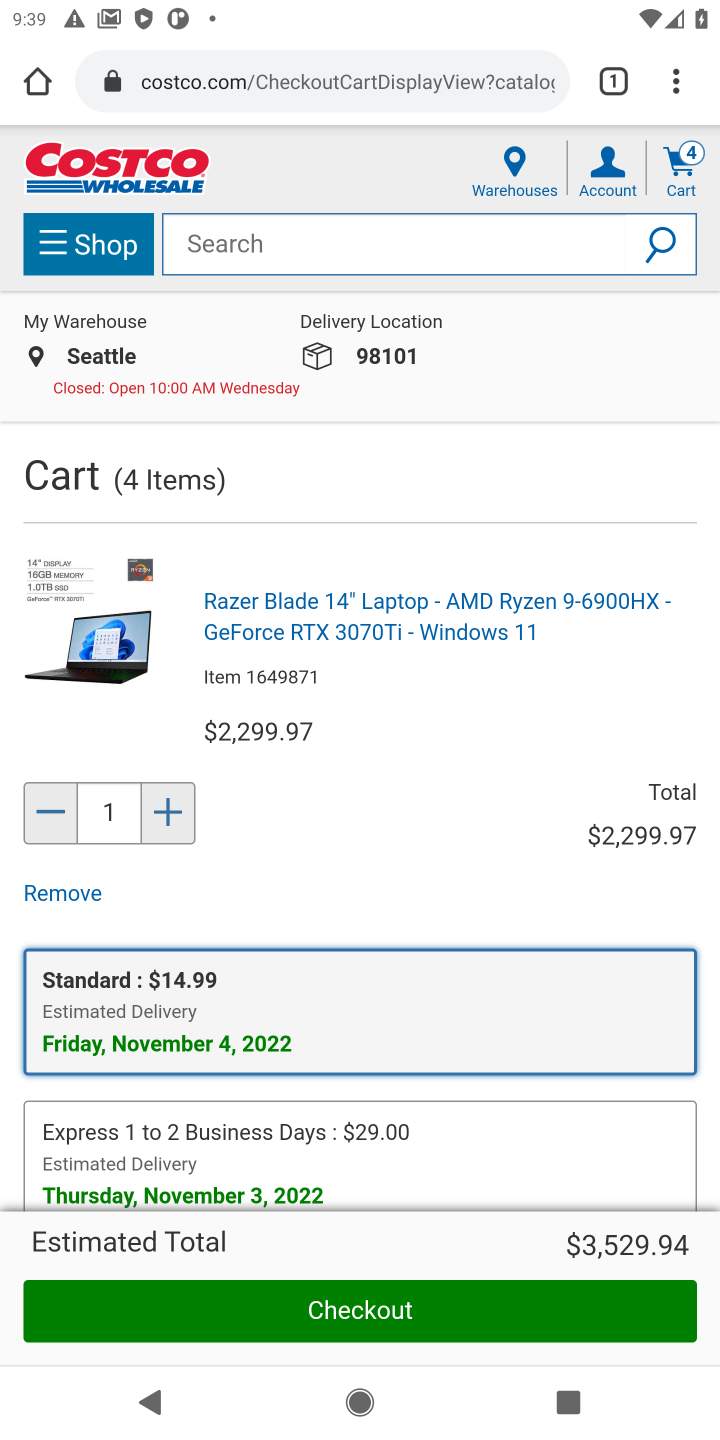
Step 28: click (53, 897)
Your task to perform on an android device: Clear the shopping cart on costco. Image 29: 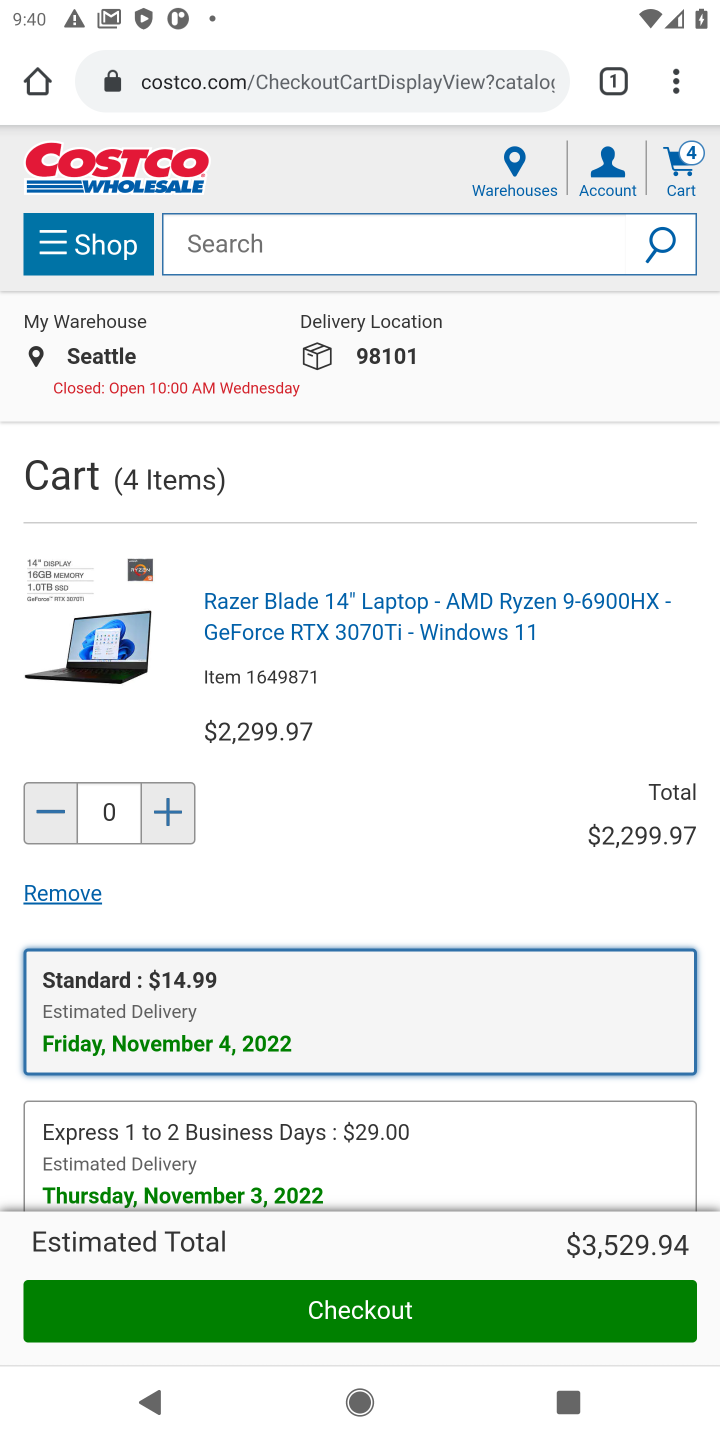
Step 29: drag from (297, 860) to (347, 450)
Your task to perform on an android device: Clear the shopping cart on costco. Image 30: 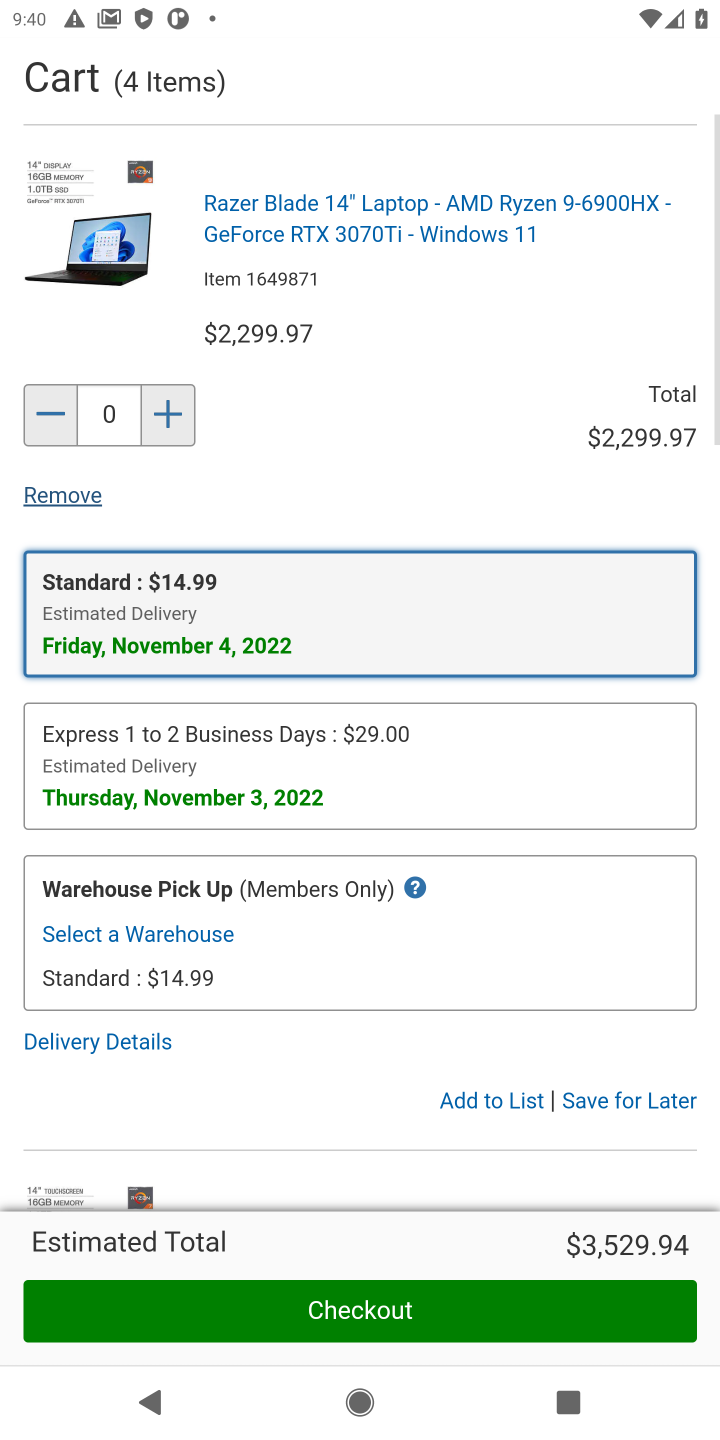
Step 30: drag from (325, 1068) to (361, 567)
Your task to perform on an android device: Clear the shopping cart on costco. Image 31: 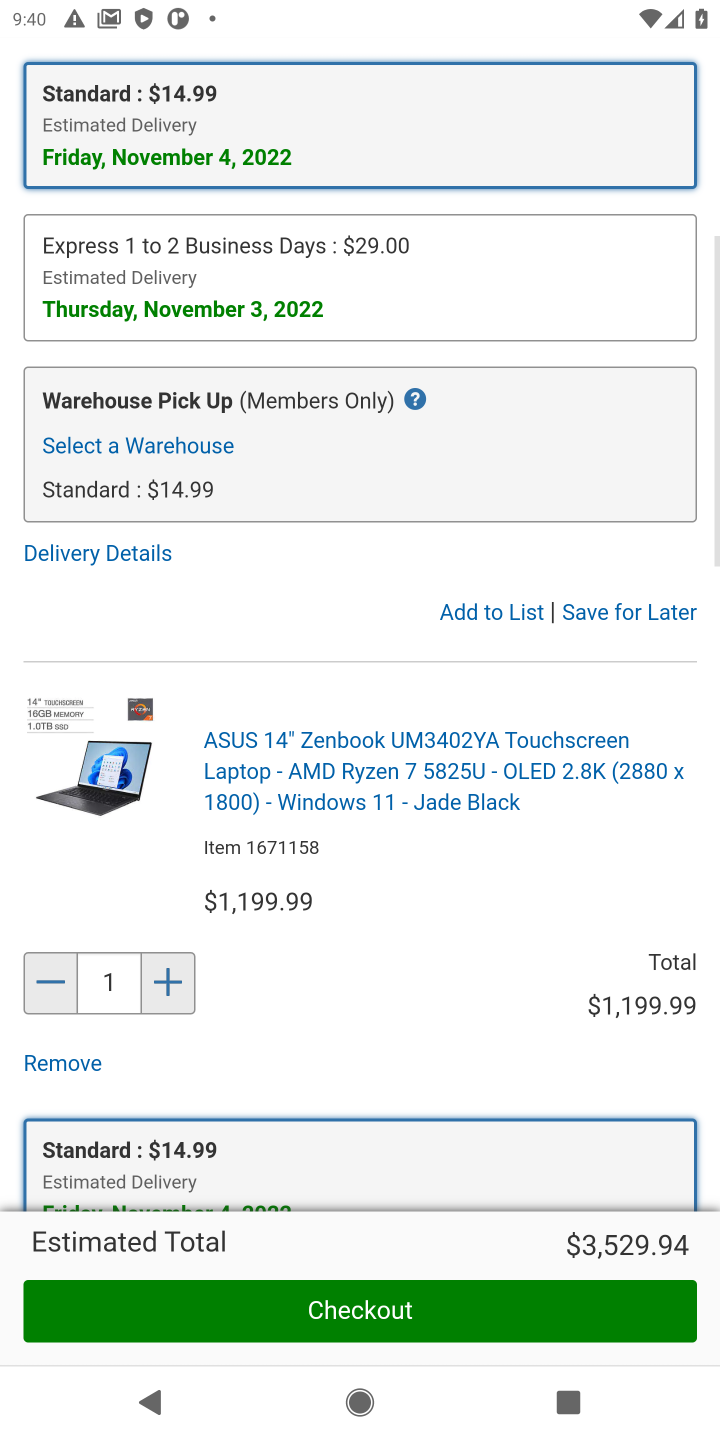
Step 31: drag from (292, 934) to (320, 567)
Your task to perform on an android device: Clear the shopping cart on costco. Image 32: 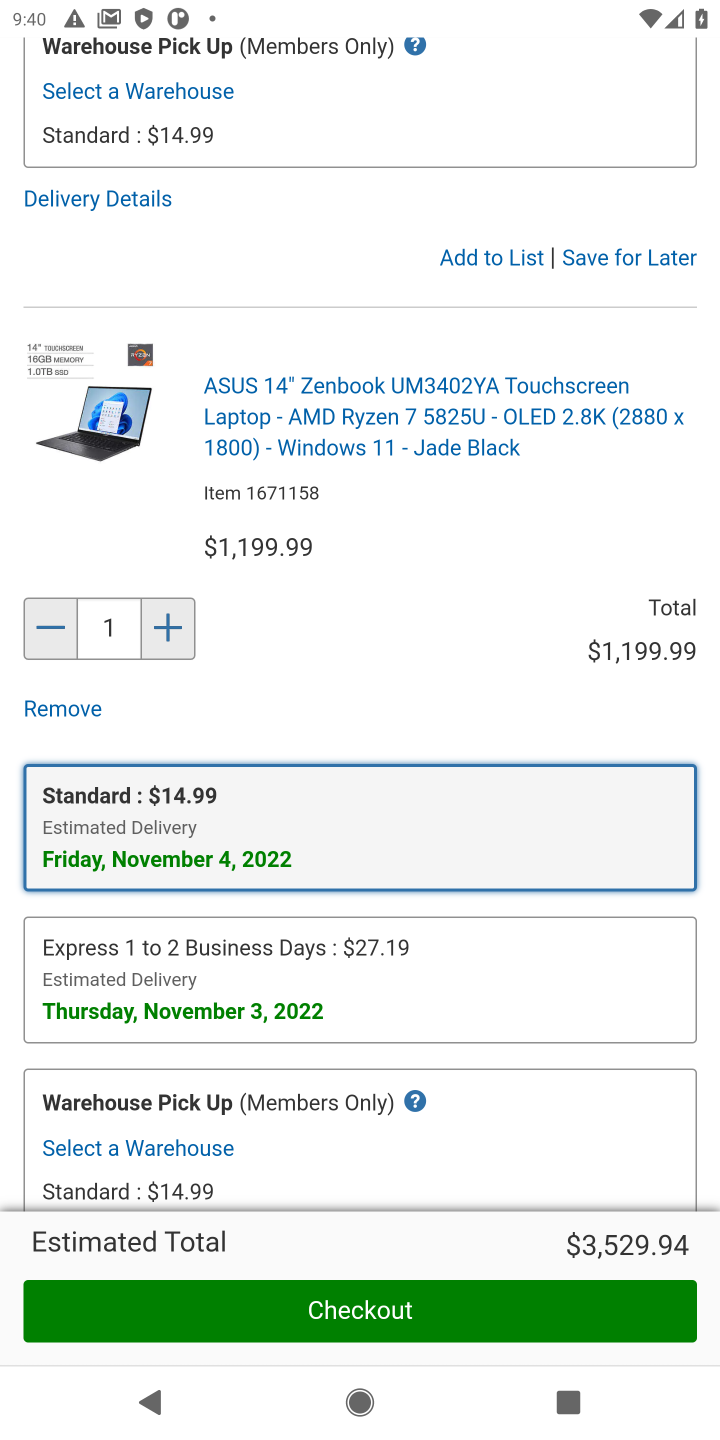
Step 32: click (59, 718)
Your task to perform on an android device: Clear the shopping cart on costco. Image 33: 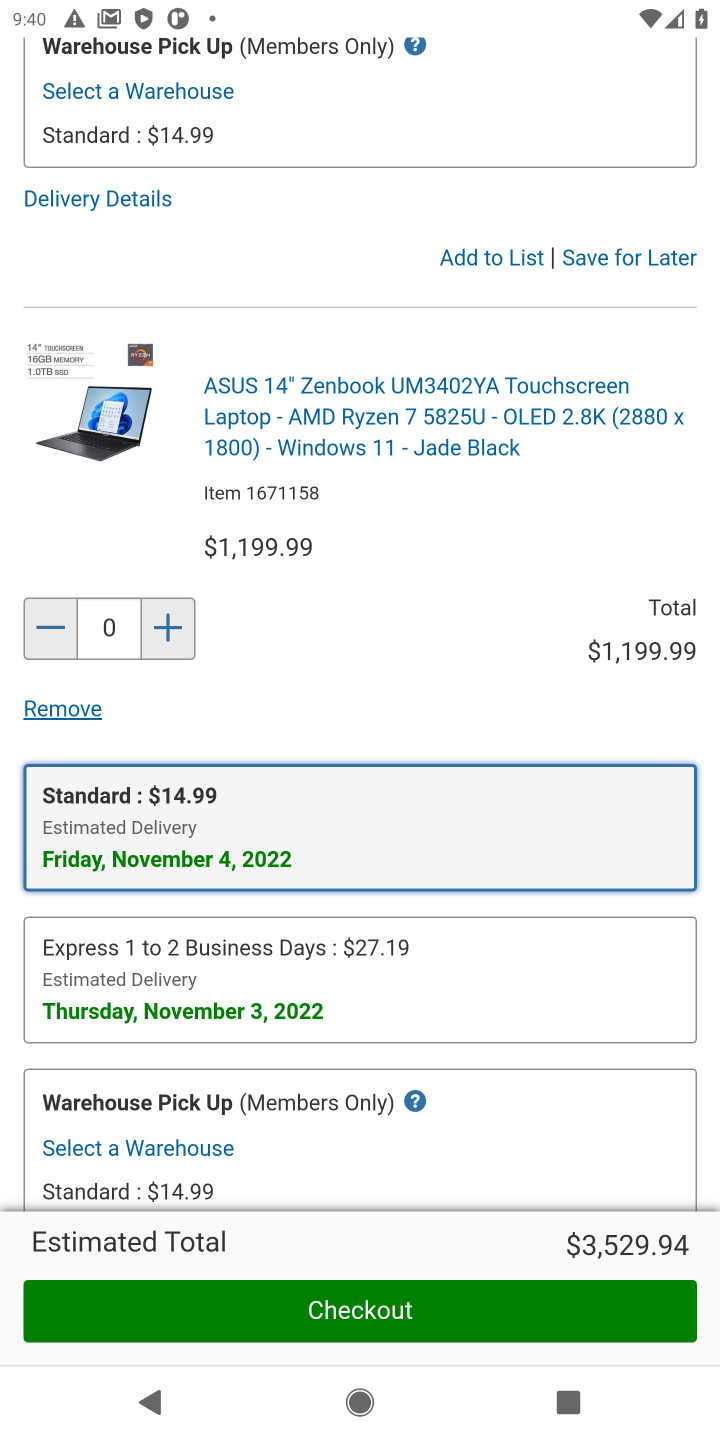
Step 33: task complete